Your task to perform on an android device: Clear all items from cart on amazon.com. Add bose soundlink to the cart on amazon.com, then select checkout. Image 0: 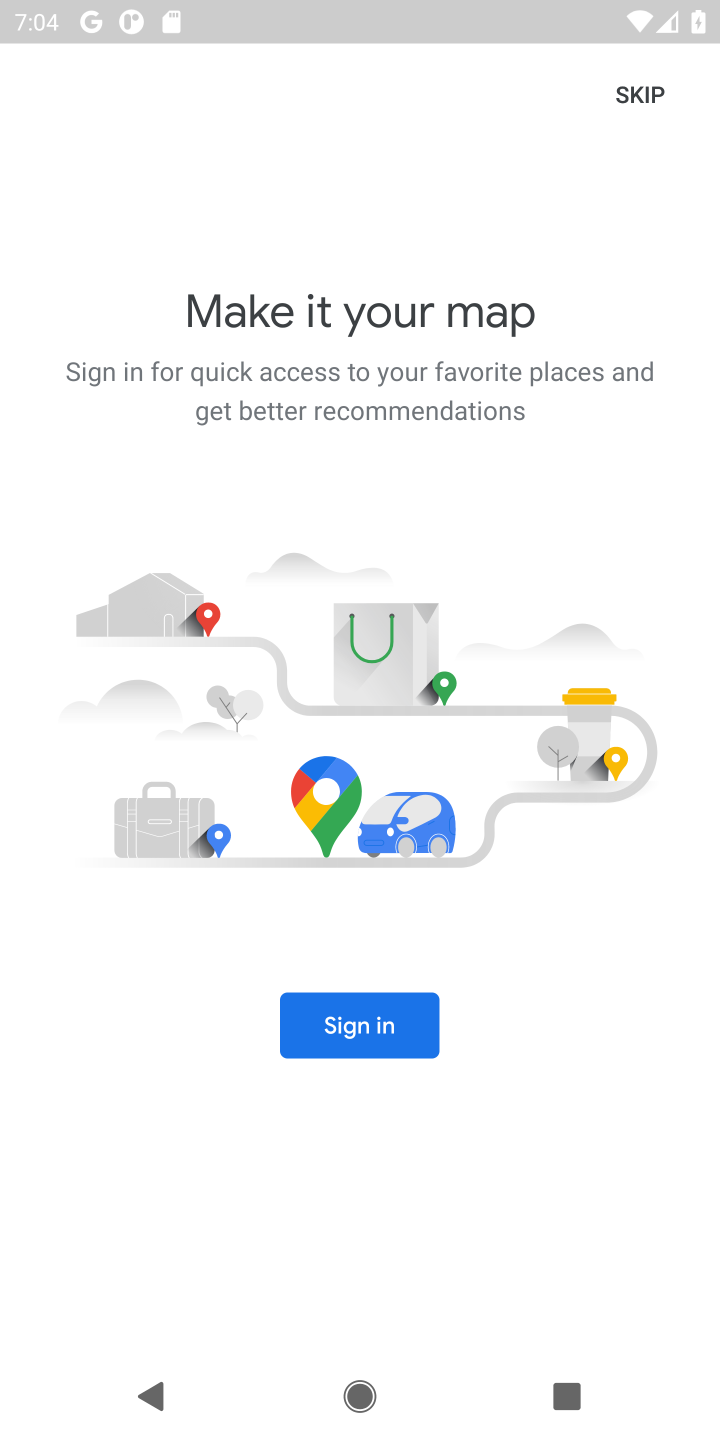
Step 0: press home button
Your task to perform on an android device: Clear all items from cart on amazon.com. Add bose soundlink to the cart on amazon.com, then select checkout. Image 1: 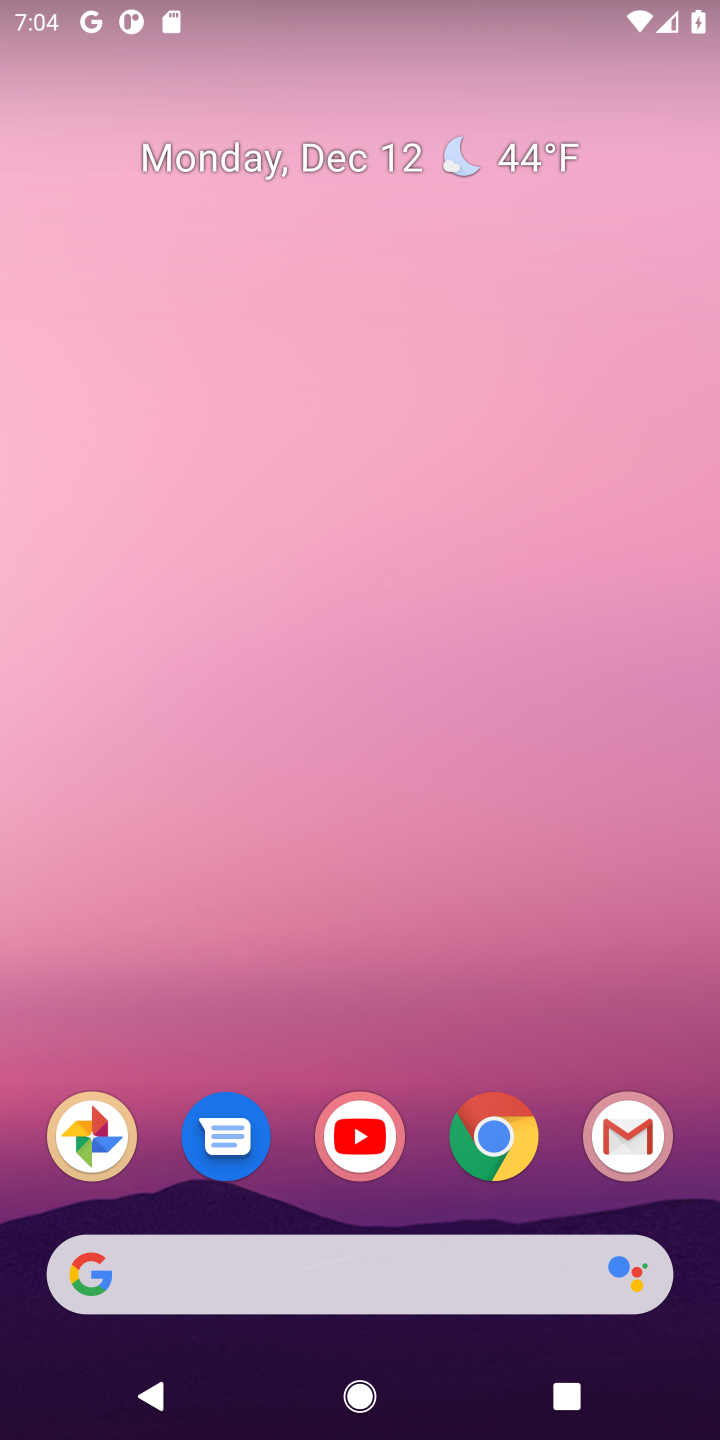
Step 1: click (487, 1133)
Your task to perform on an android device: Clear all items from cart on amazon.com. Add bose soundlink to the cart on amazon.com, then select checkout. Image 2: 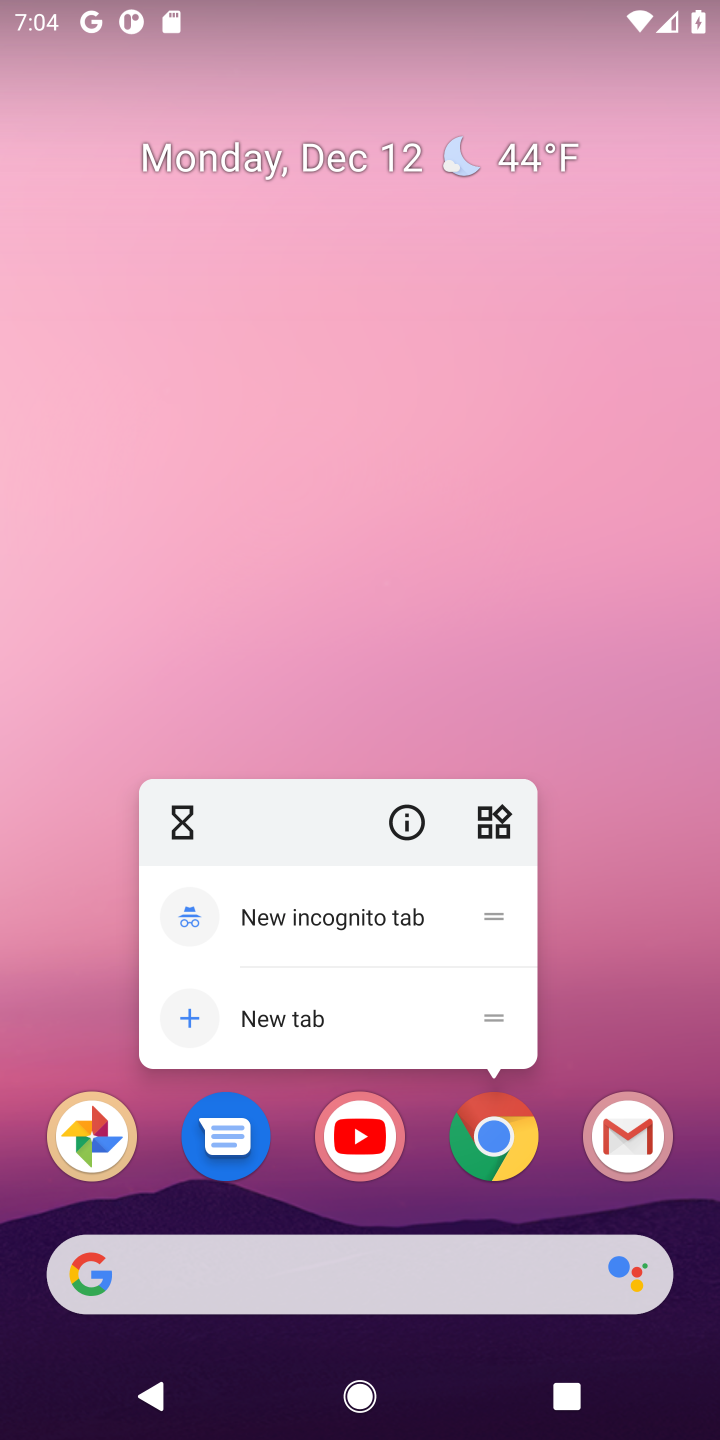
Step 2: click (499, 1145)
Your task to perform on an android device: Clear all items from cart on amazon.com. Add bose soundlink to the cart on amazon.com, then select checkout. Image 3: 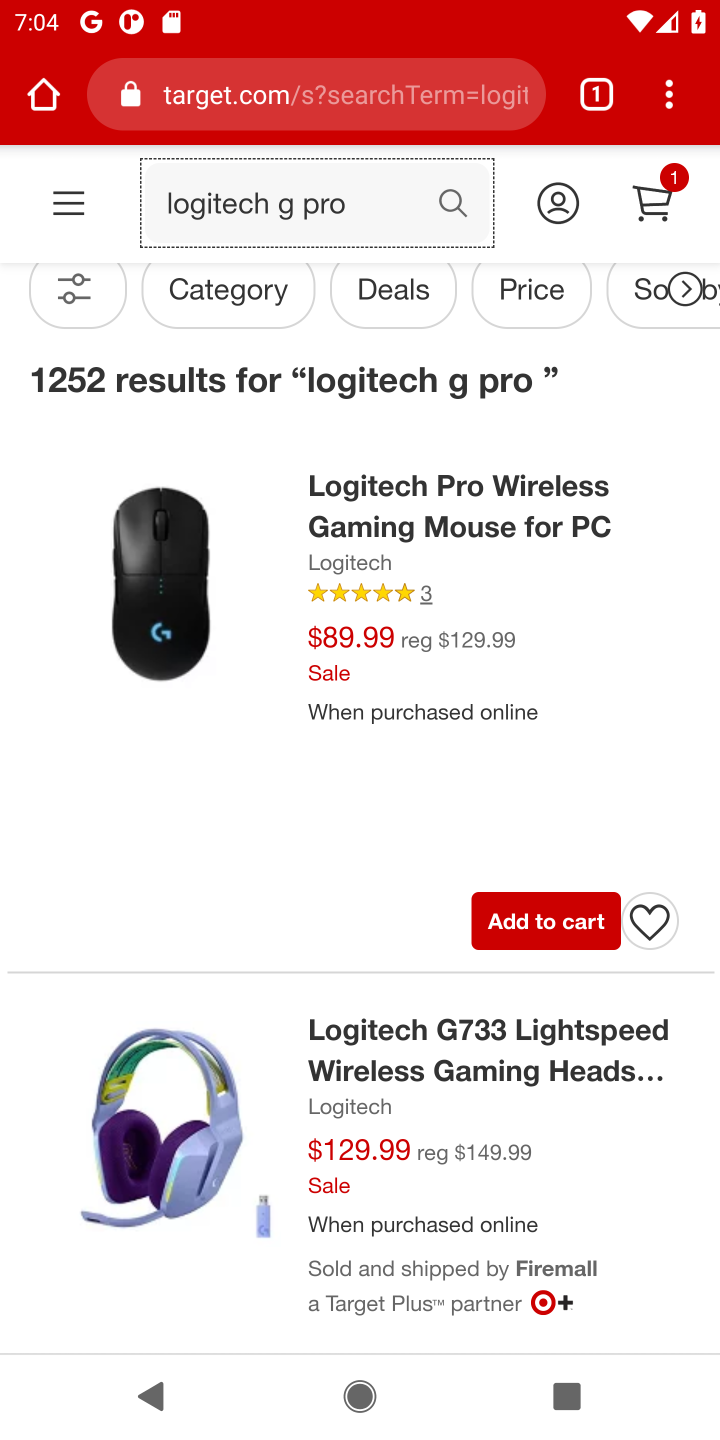
Step 3: click (248, 103)
Your task to perform on an android device: Clear all items from cart on amazon.com. Add bose soundlink to the cart on amazon.com, then select checkout. Image 4: 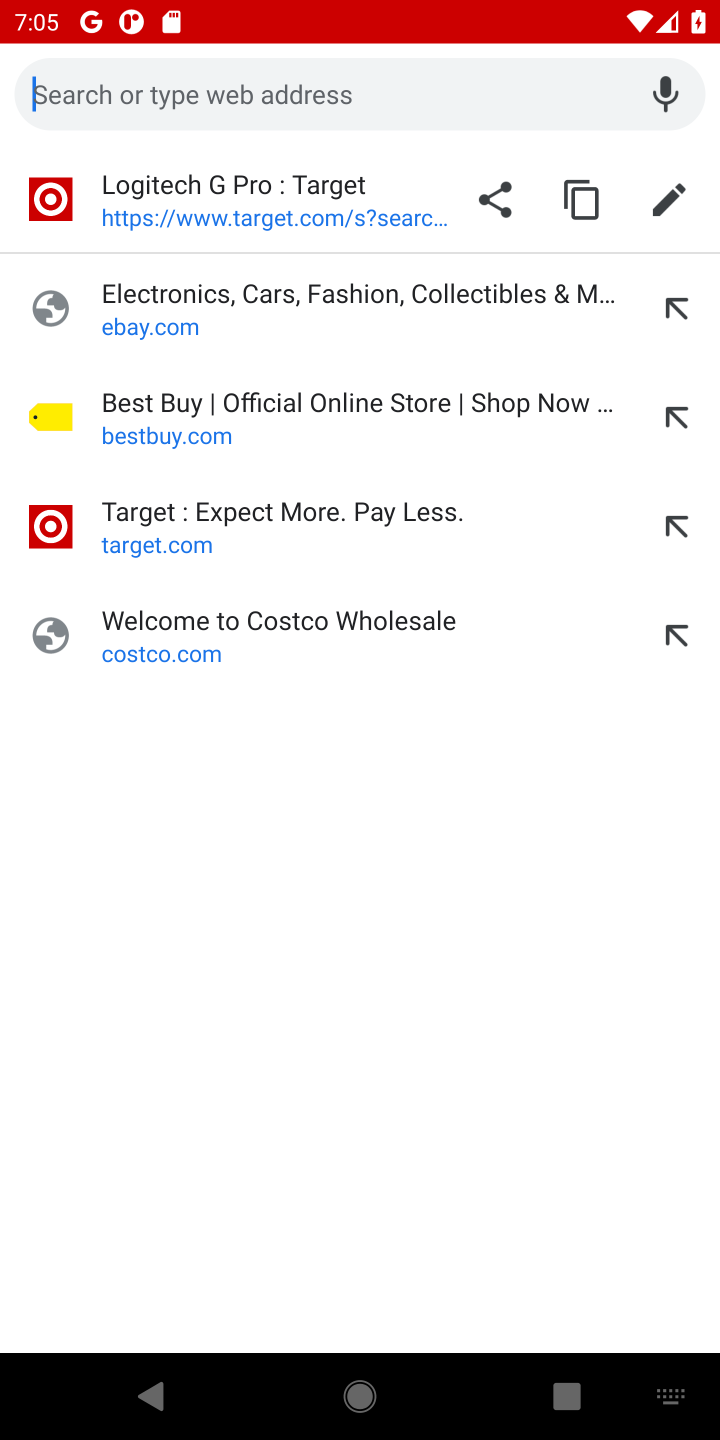
Step 4: type "amazon.com"
Your task to perform on an android device: Clear all items from cart on amazon.com. Add bose soundlink to the cart on amazon.com, then select checkout. Image 5: 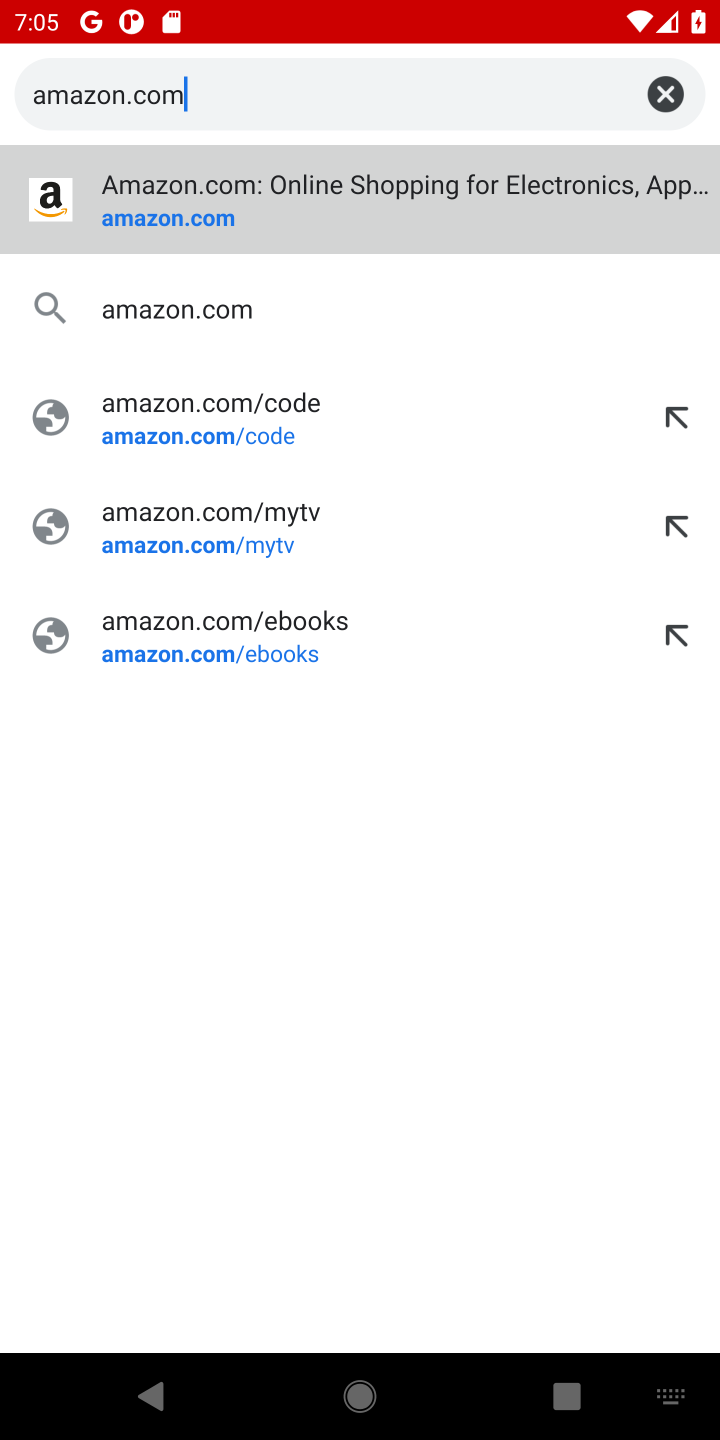
Step 5: click (150, 218)
Your task to perform on an android device: Clear all items from cart on amazon.com. Add bose soundlink to the cart on amazon.com, then select checkout. Image 6: 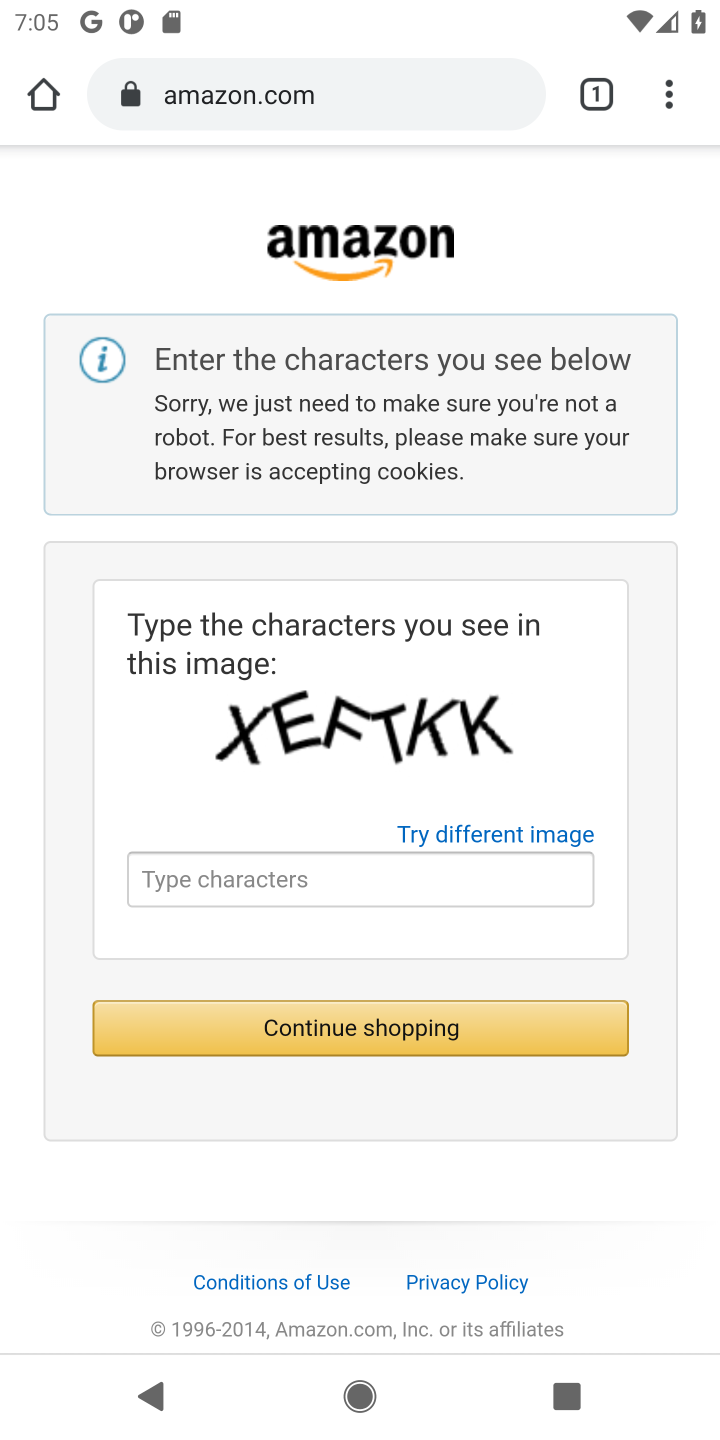
Step 6: click (231, 878)
Your task to perform on an android device: Clear all items from cart on amazon.com. Add bose soundlink to the cart on amazon.com, then select checkout. Image 7: 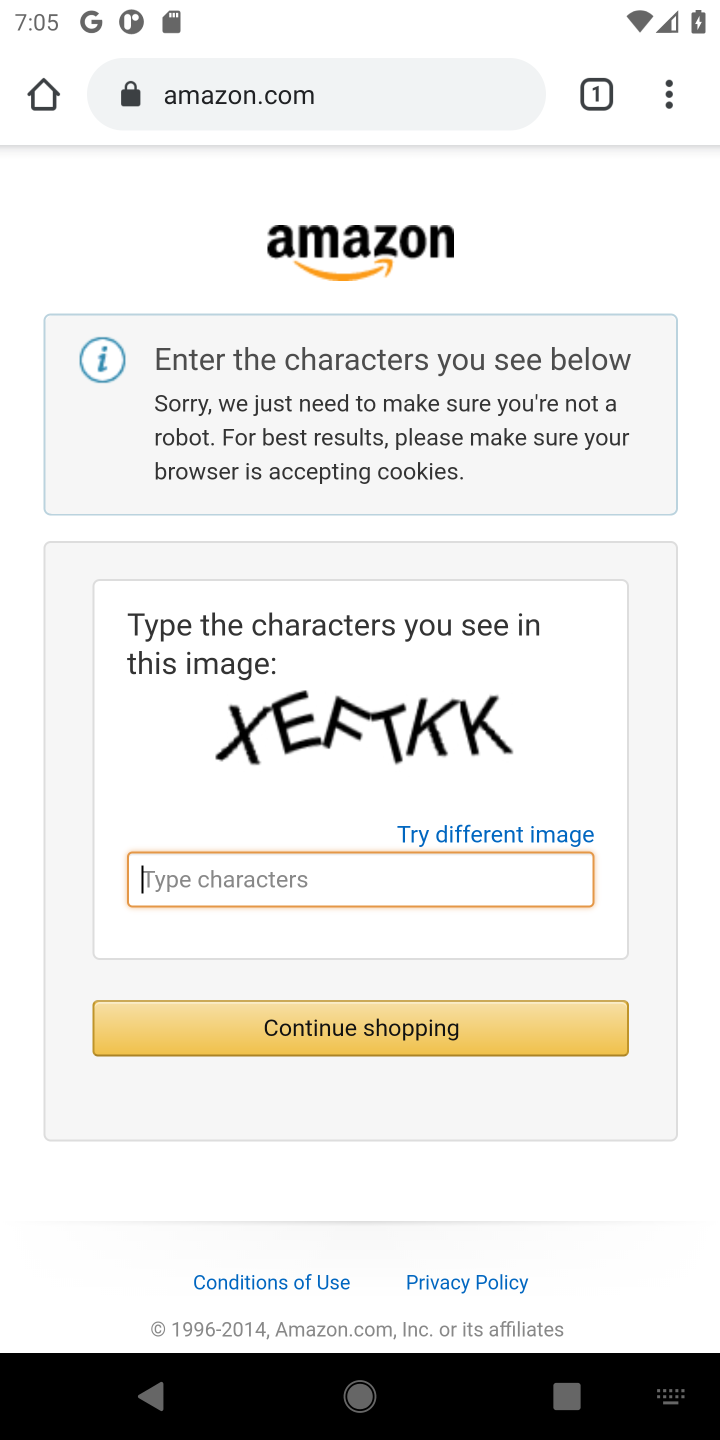
Step 7: type "XEFTKK"
Your task to perform on an android device: Clear all items from cart on amazon.com. Add bose soundlink to the cart on amazon.com, then select checkout. Image 8: 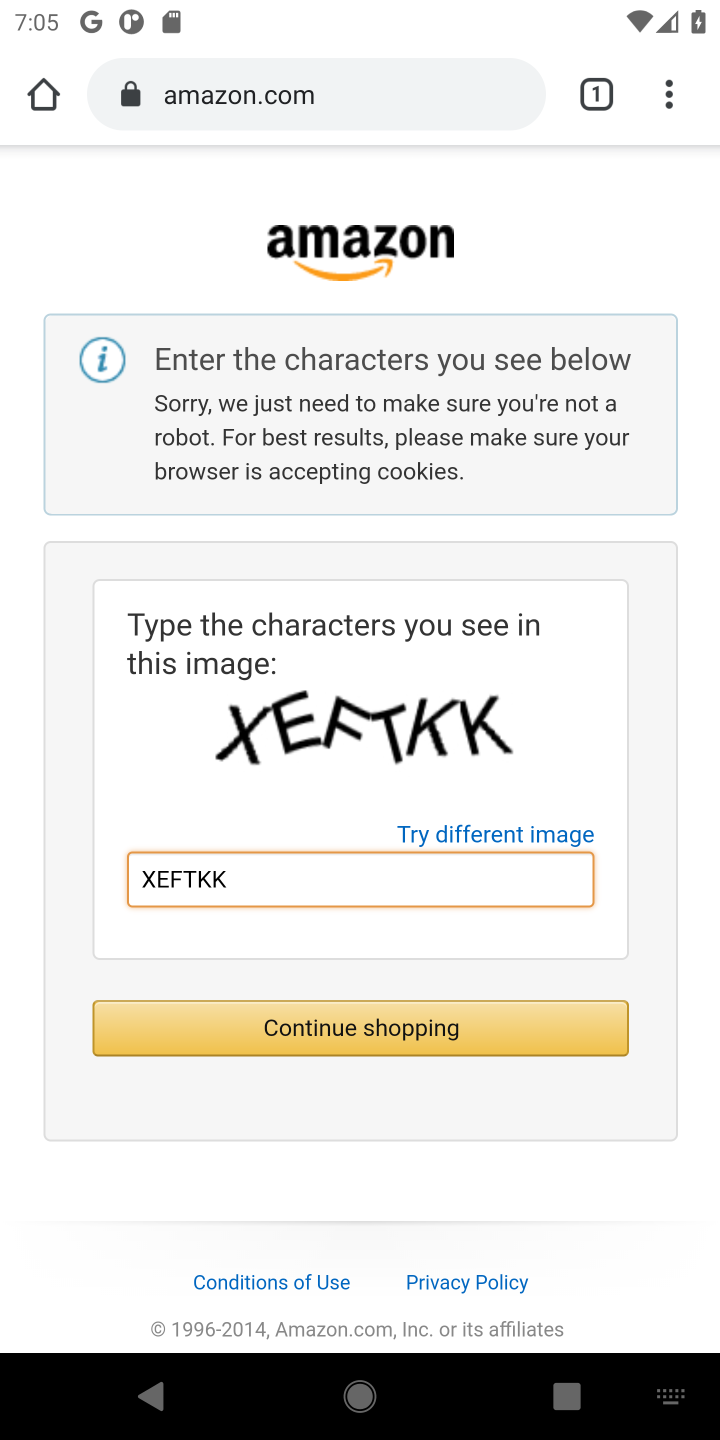
Step 8: click (399, 1033)
Your task to perform on an android device: Clear all items from cart on amazon.com. Add bose soundlink to the cart on amazon.com, then select checkout. Image 9: 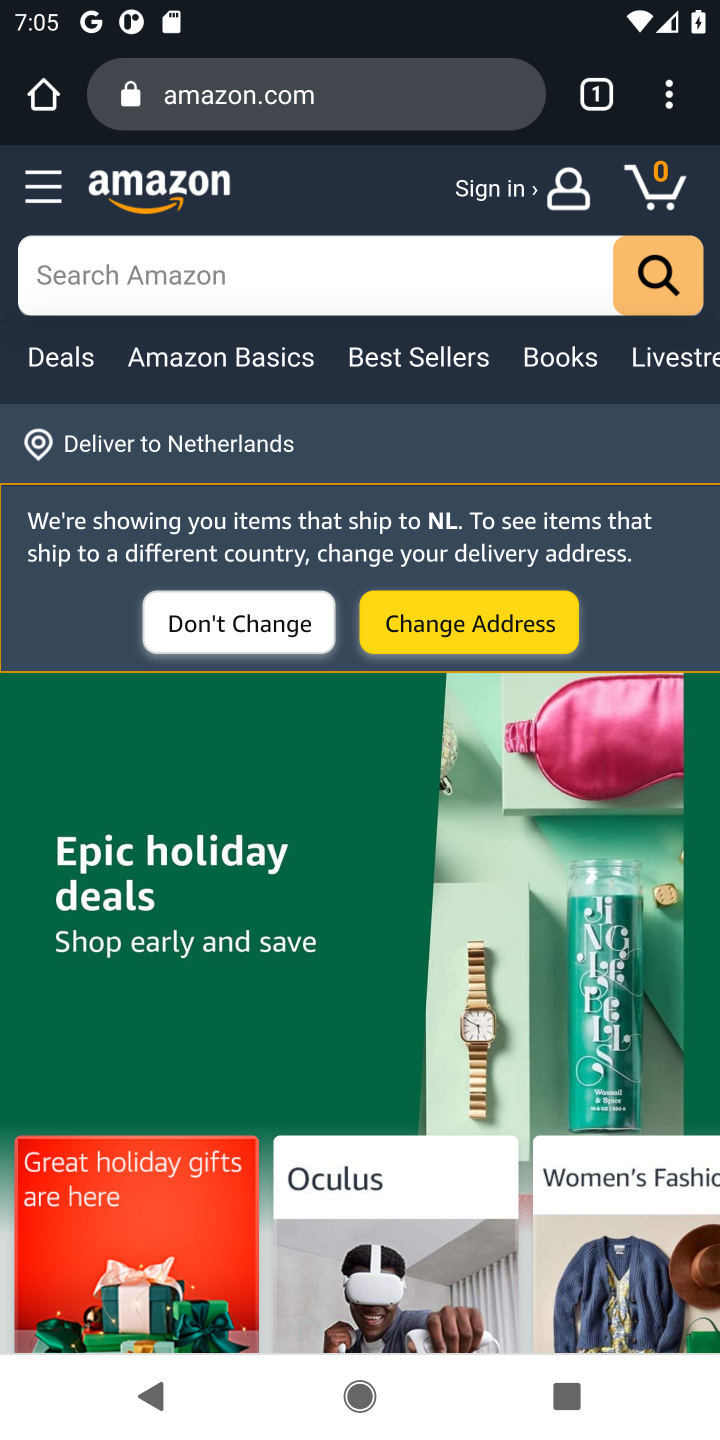
Step 9: click (658, 185)
Your task to perform on an android device: Clear all items from cart on amazon.com. Add bose soundlink to the cart on amazon.com, then select checkout. Image 10: 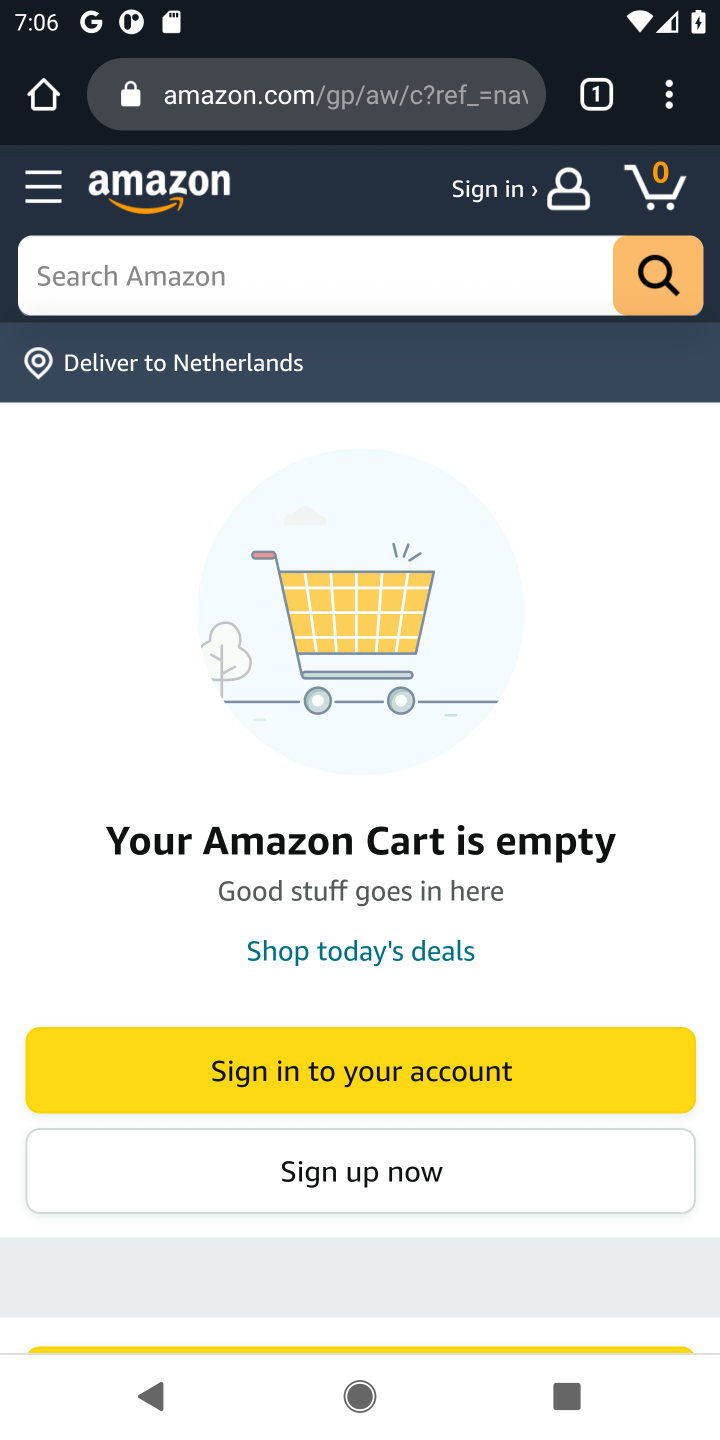
Step 10: click (101, 271)
Your task to perform on an android device: Clear all items from cart on amazon.com. Add bose soundlink to the cart on amazon.com, then select checkout. Image 11: 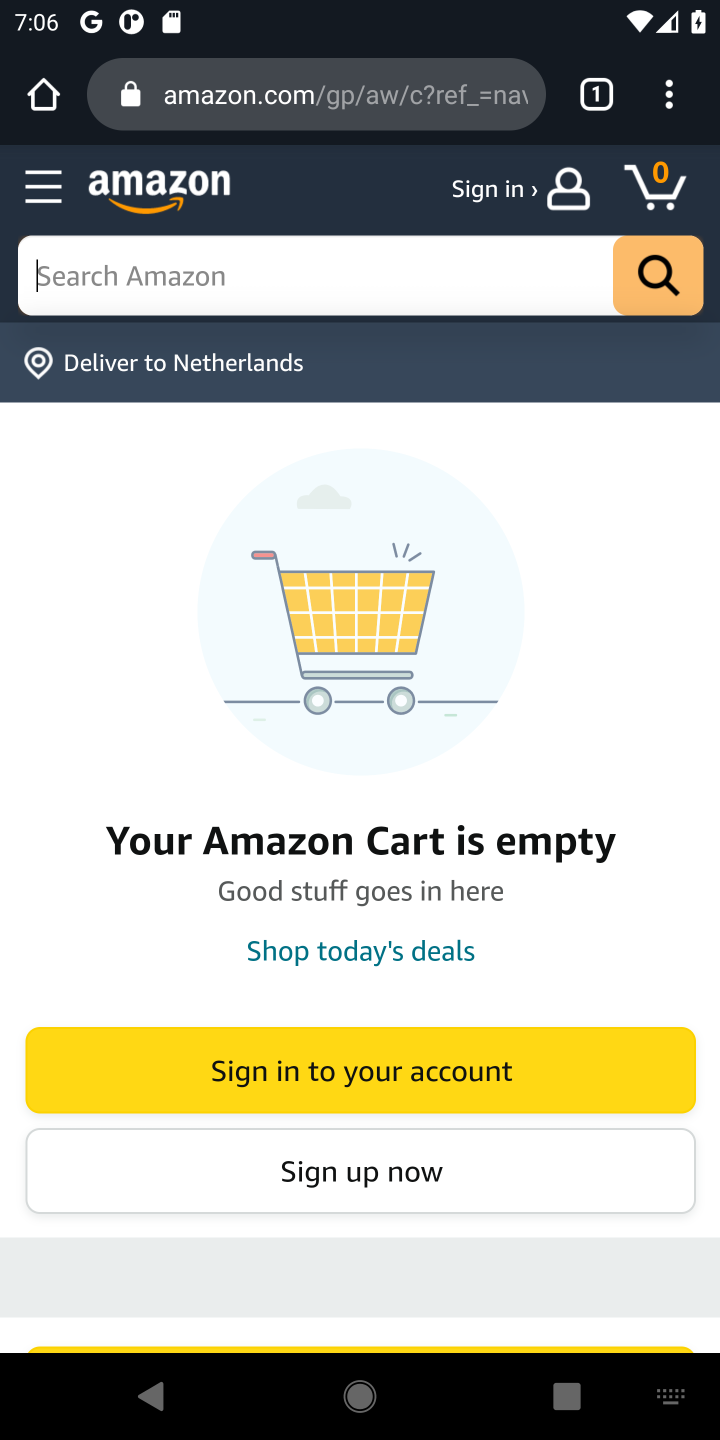
Step 11: type "bose soundlink"
Your task to perform on an android device: Clear all items from cart on amazon.com. Add bose soundlink to the cart on amazon.com, then select checkout. Image 12: 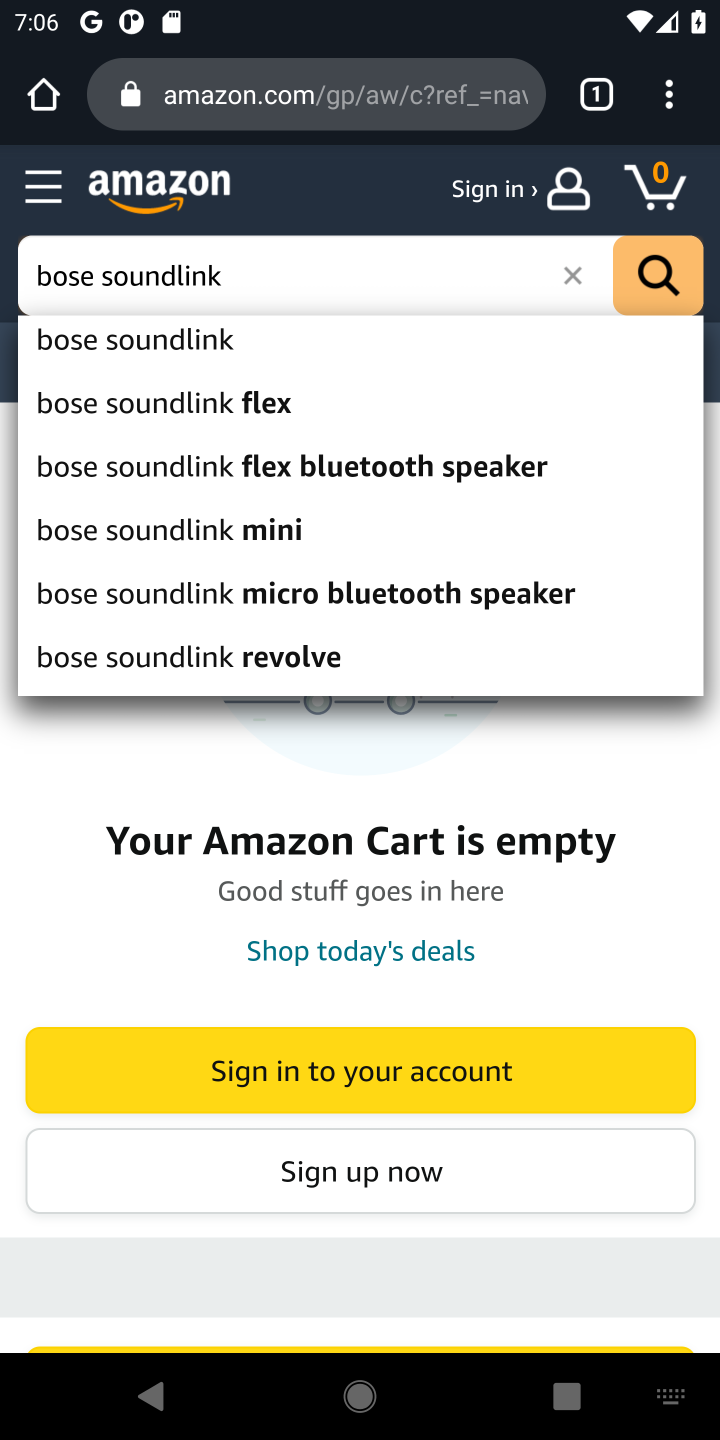
Step 12: click (211, 356)
Your task to perform on an android device: Clear all items from cart on amazon.com. Add bose soundlink to the cart on amazon.com, then select checkout. Image 13: 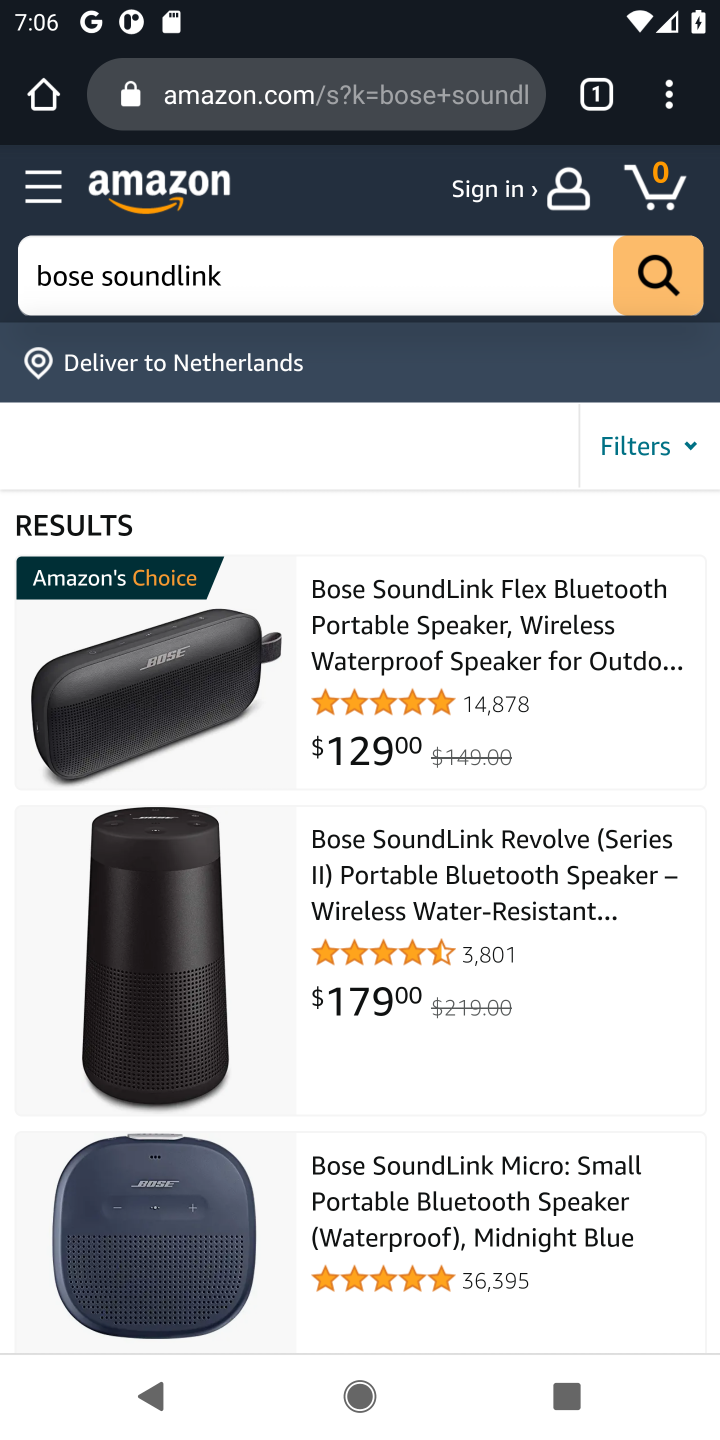
Step 13: click (401, 665)
Your task to perform on an android device: Clear all items from cart on amazon.com. Add bose soundlink to the cart on amazon.com, then select checkout. Image 14: 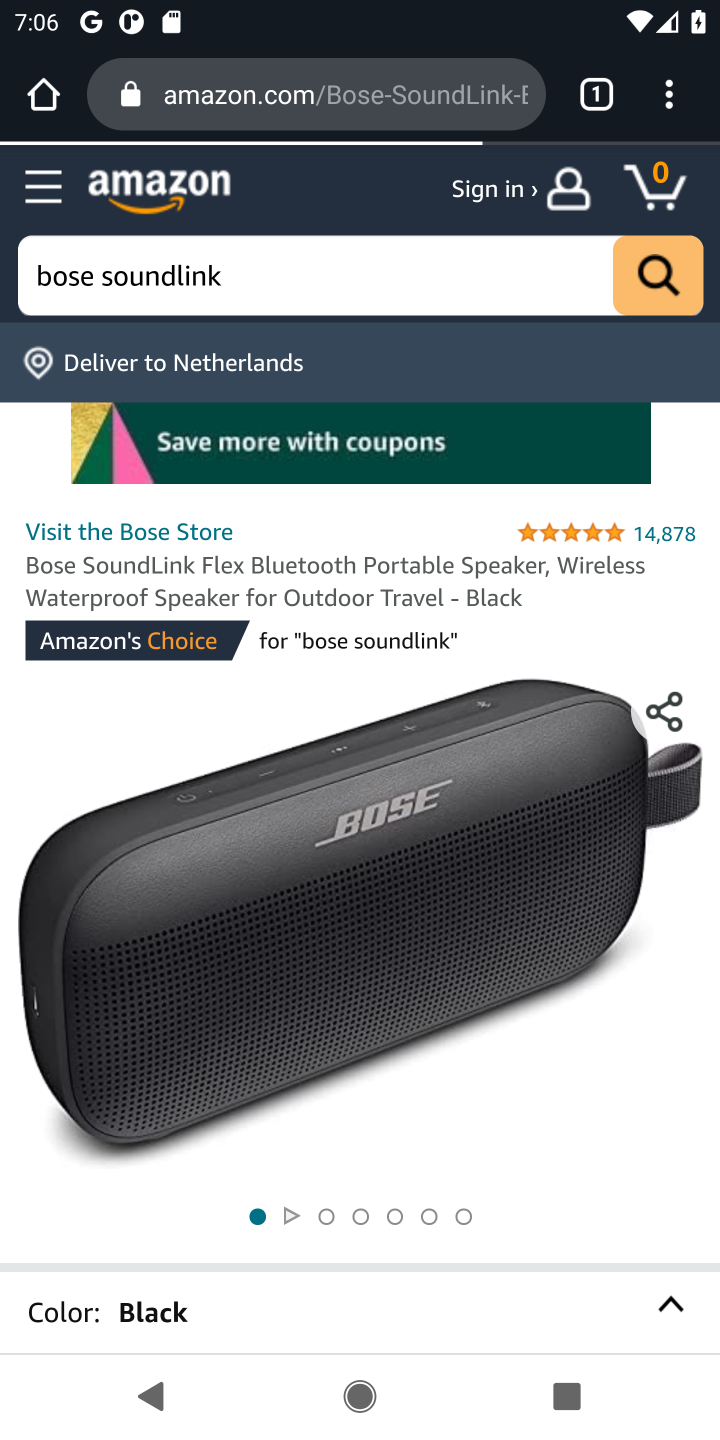
Step 14: drag from (421, 1025) to (429, 300)
Your task to perform on an android device: Clear all items from cart on amazon.com. Add bose soundlink to the cart on amazon.com, then select checkout. Image 15: 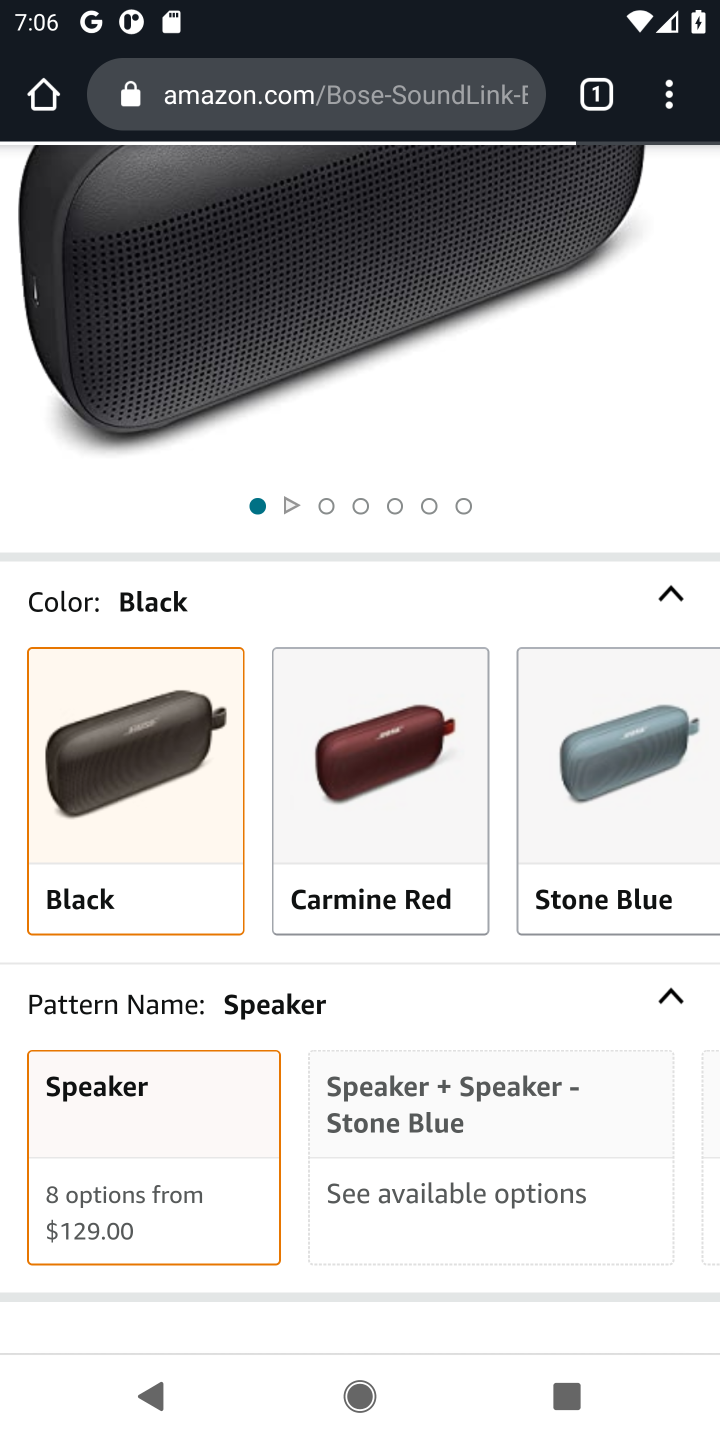
Step 15: drag from (386, 923) to (374, 409)
Your task to perform on an android device: Clear all items from cart on amazon.com. Add bose soundlink to the cart on amazon.com, then select checkout. Image 16: 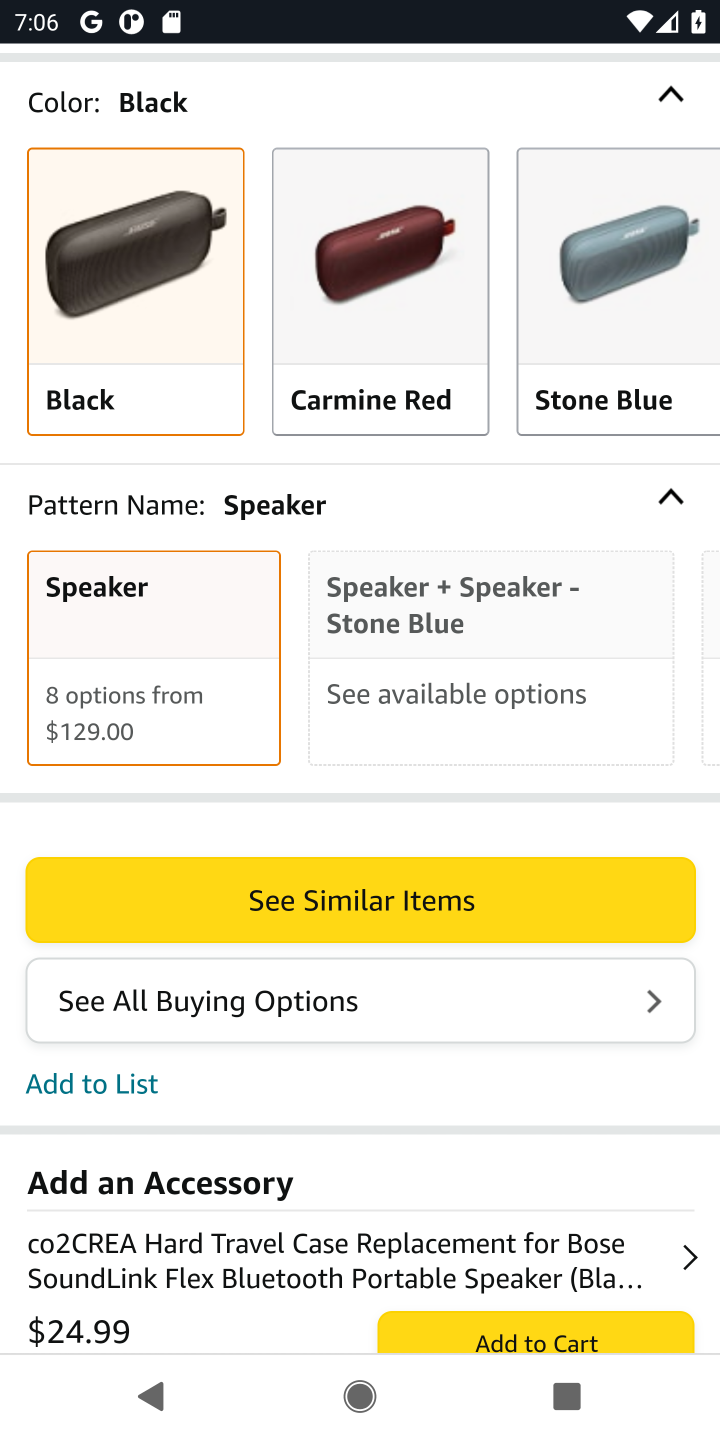
Step 16: press back button
Your task to perform on an android device: Clear all items from cart on amazon.com. Add bose soundlink to the cart on amazon.com, then select checkout. Image 17: 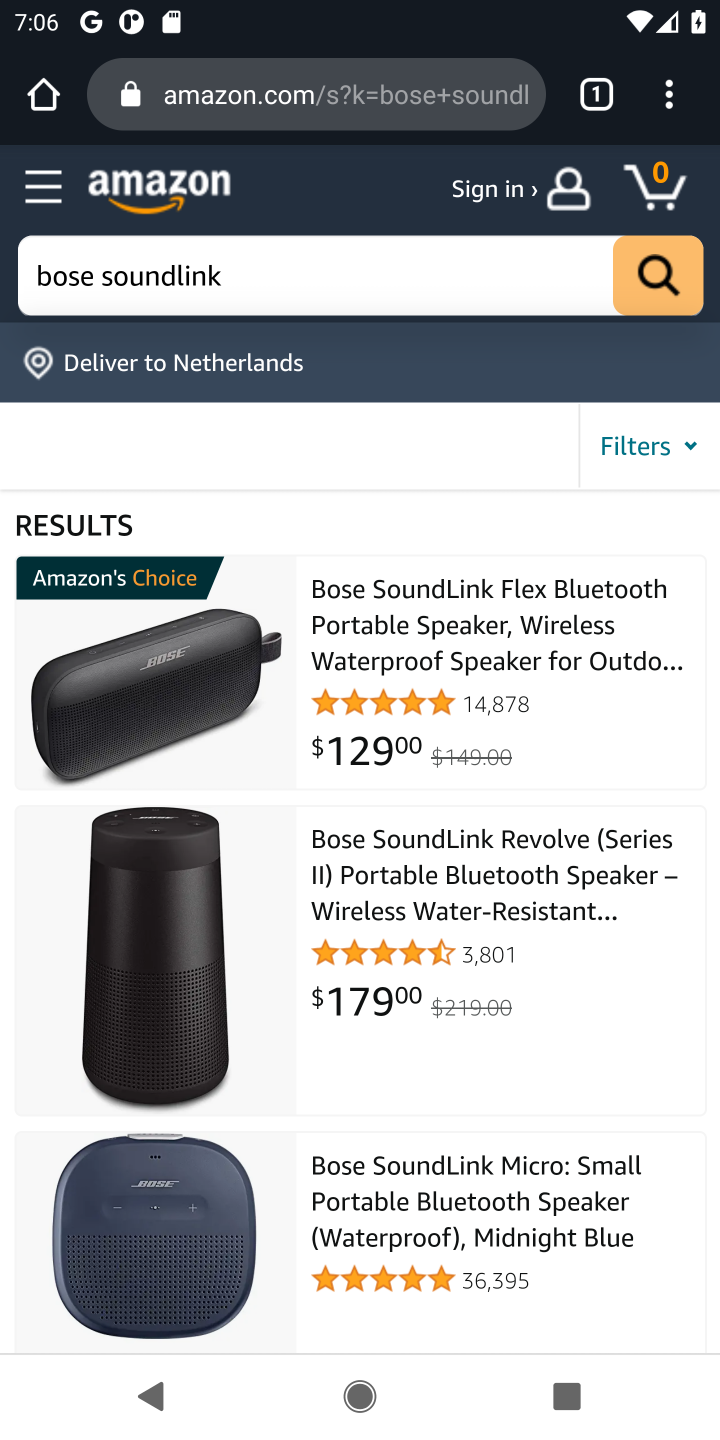
Step 17: drag from (452, 923) to (486, 575)
Your task to perform on an android device: Clear all items from cart on amazon.com. Add bose soundlink to the cart on amazon.com, then select checkout. Image 18: 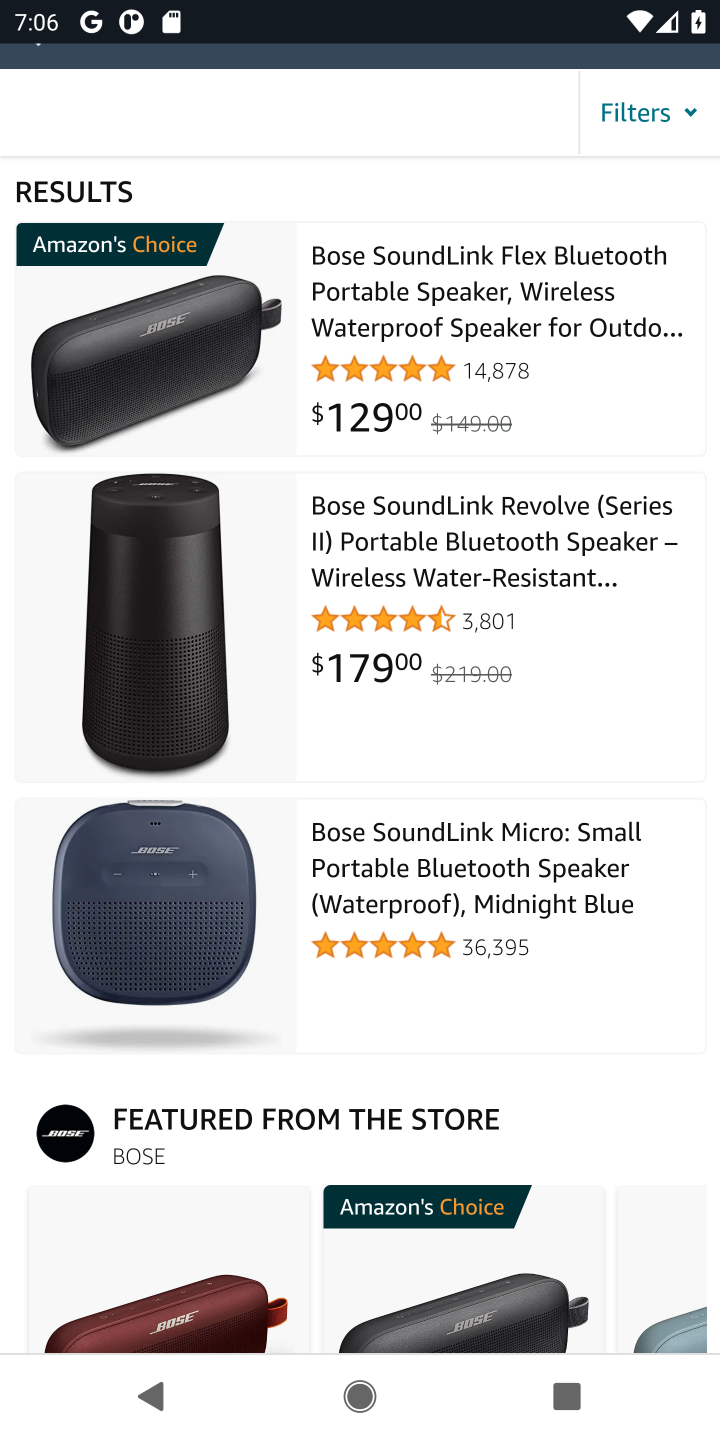
Step 18: drag from (457, 927) to (423, 607)
Your task to perform on an android device: Clear all items from cart on amazon.com. Add bose soundlink to the cart on amazon.com, then select checkout. Image 19: 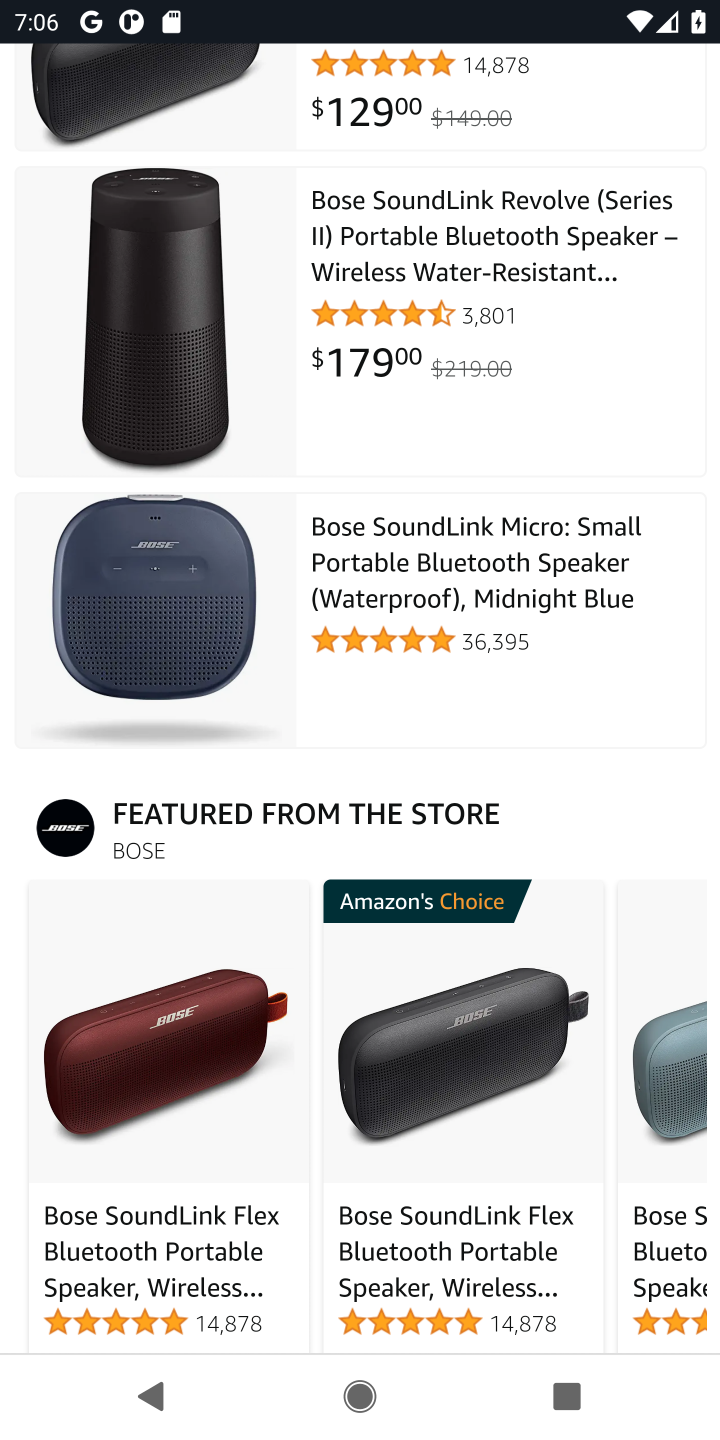
Step 19: click (414, 284)
Your task to perform on an android device: Clear all items from cart on amazon.com. Add bose soundlink to the cart on amazon.com, then select checkout. Image 20: 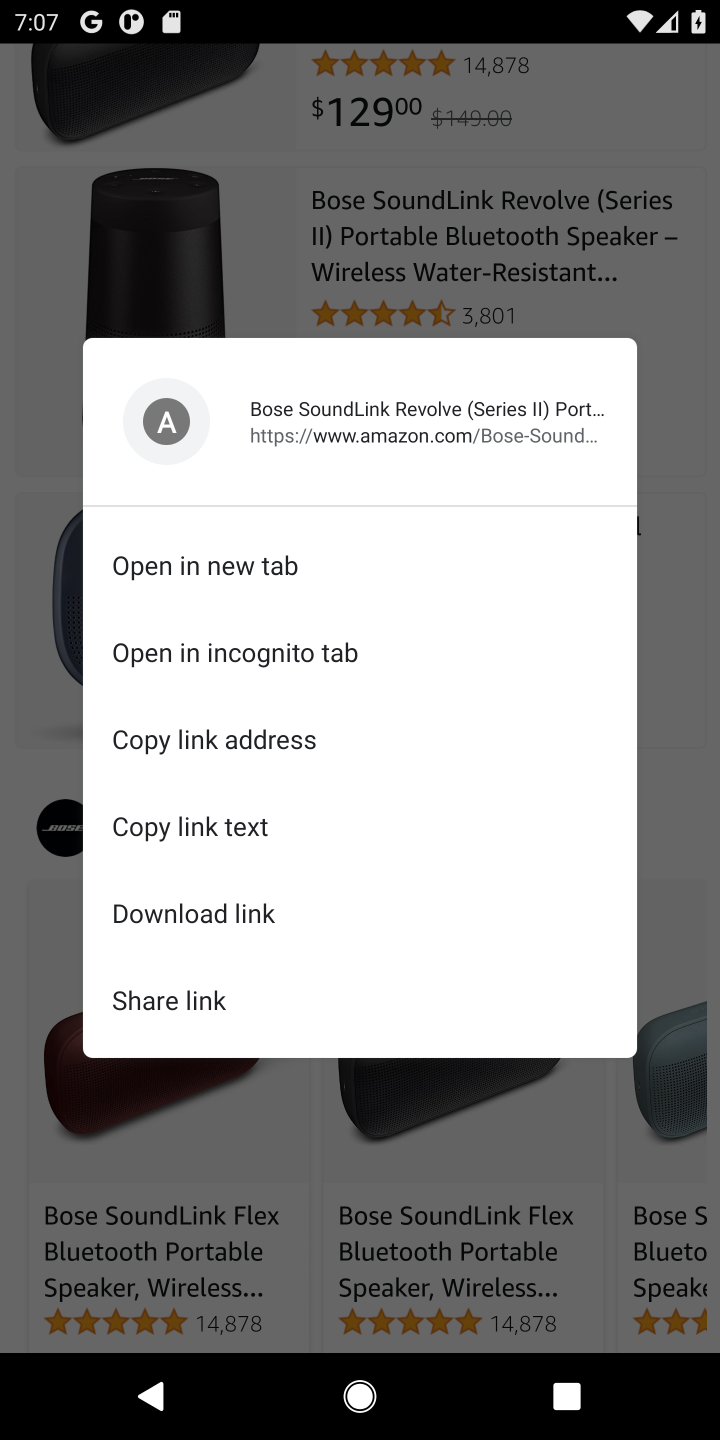
Step 20: click (436, 236)
Your task to perform on an android device: Clear all items from cart on amazon.com. Add bose soundlink to the cart on amazon.com, then select checkout. Image 21: 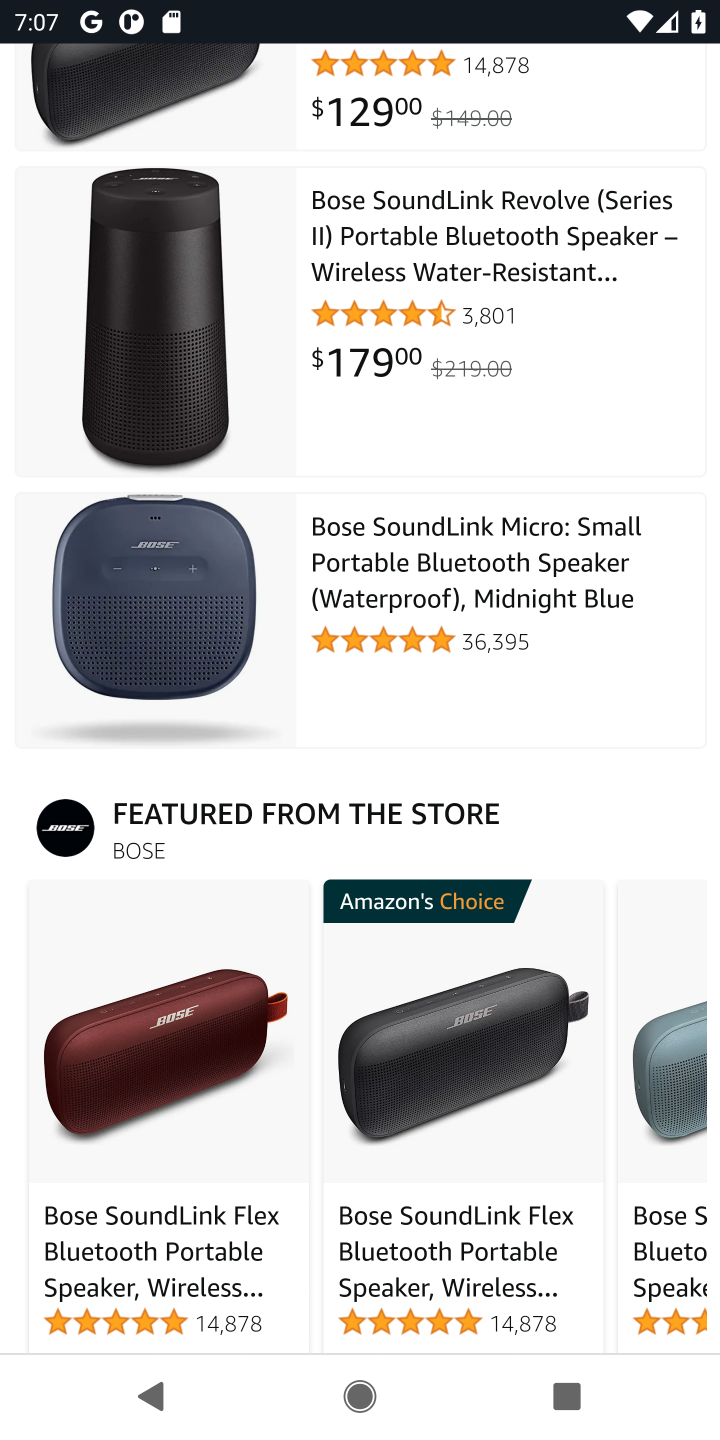
Step 21: drag from (364, 617) to (319, 198)
Your task to perform on an android device: Clear all items from cart on amazon.com. Add bose soundlink to the cart on amazon.com, then select checkout. Image 22: 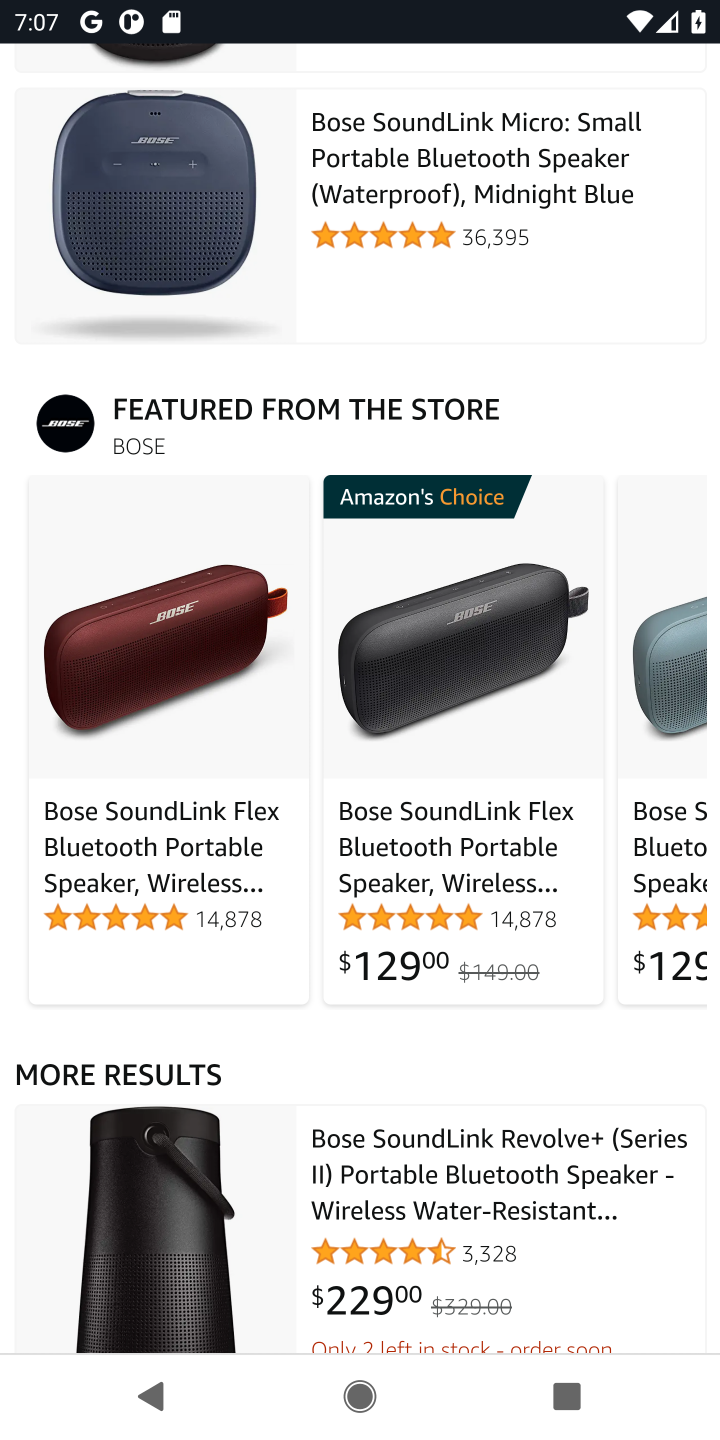
Step 22: drag from (320, 1098) to (336, 601)
Your task to perform on an android device: Clear all items from cart on amazon.com. Add bose soundlink to the cart on amazon.com, then select checkout. Image 23: 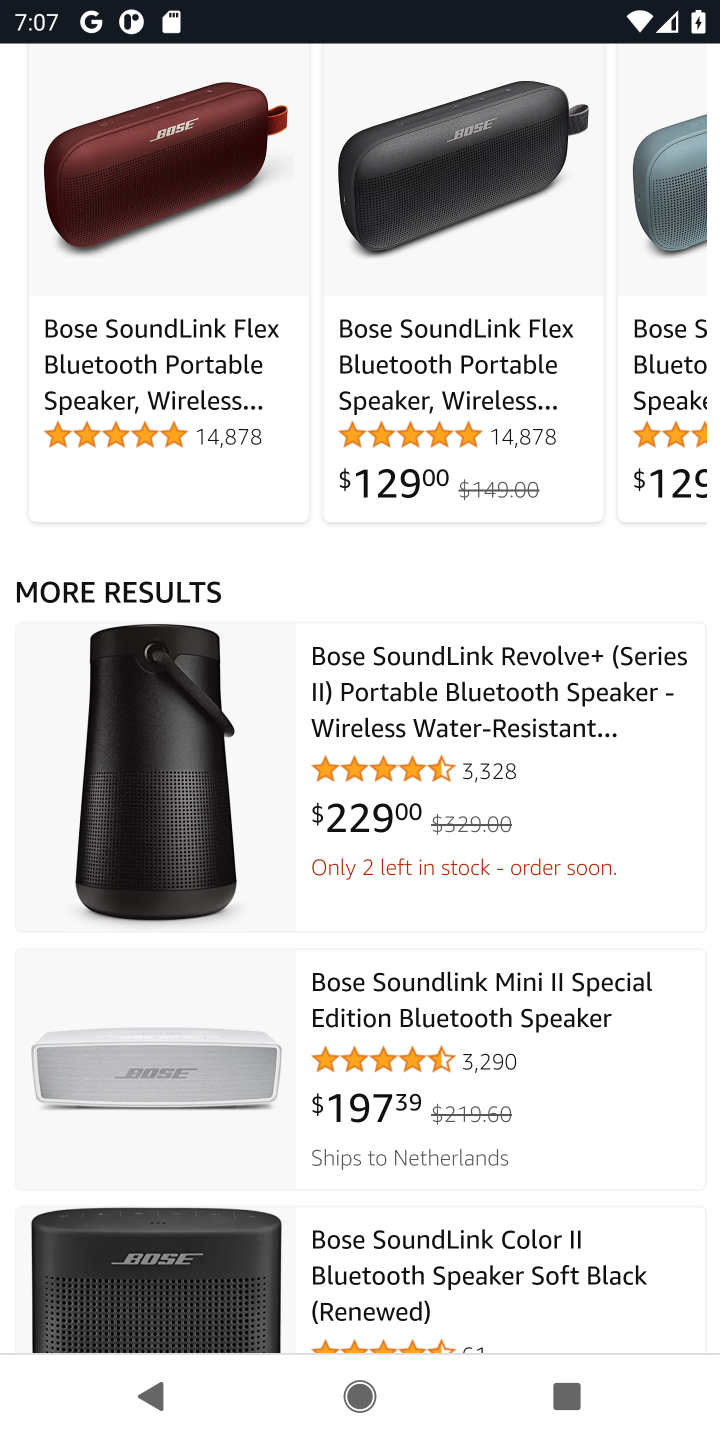
Step 23: click (420, 704)
Your task to perform on an android device: Clear all items from cart on amazon.com. Add bose soundlink to the cart on amazon.com, then select checkout. Image 24: 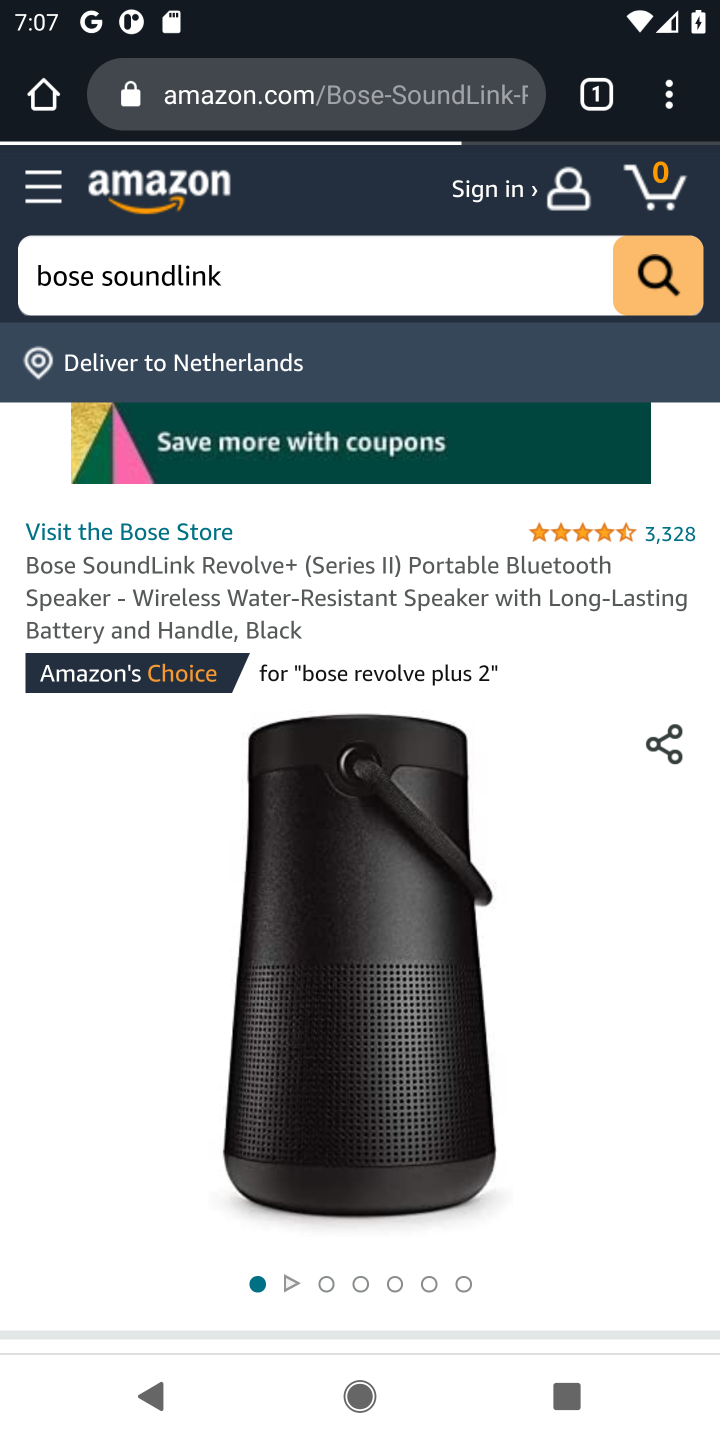
Step 24: drag from (380, 923) to (344, 197)
Your task to perform on an android device: Clear all items from cart on amazon.com. Add bose soundlink to the cart on amazon.com, then select checkout. Image 25: 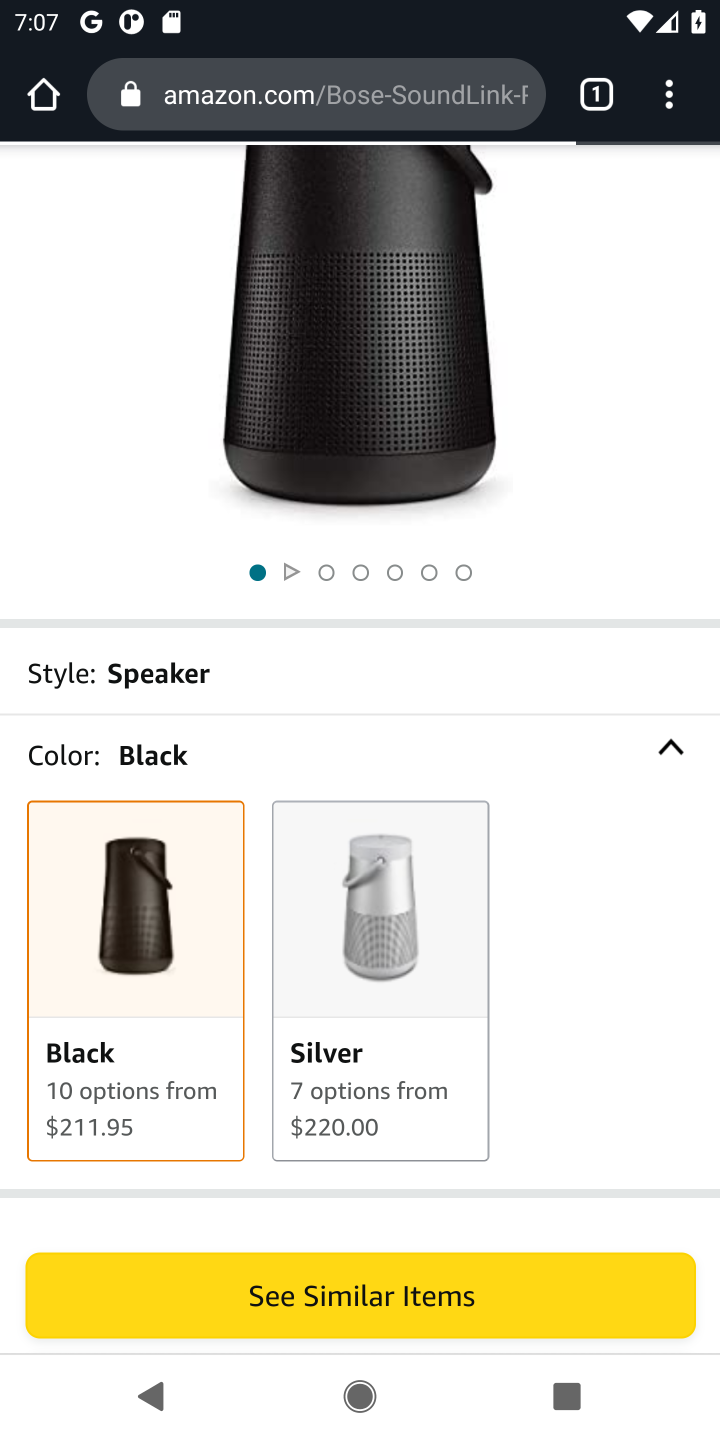
Step 25: drag from (375, 910) to (361, 458)
Your task to perform on an android device: Clear all items from cart on amazon.com. Add bose soundlink to the cart on amazon.com, then select checkout. Image 26: 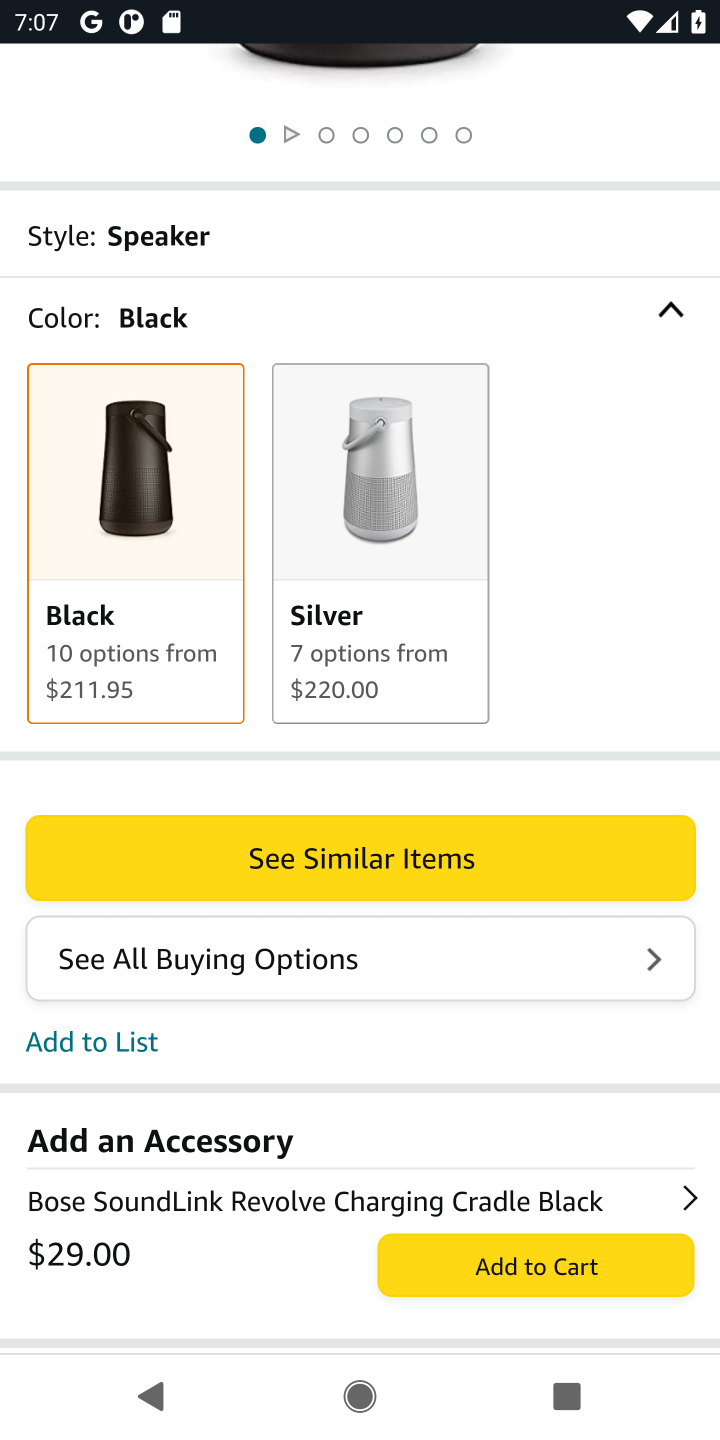
Step 26: press back button
Your task to perform on an android device: Clear all items from cart on amazon.com. Add bose soundlink to the cart on amazon.com, then select checkout. Image 27: 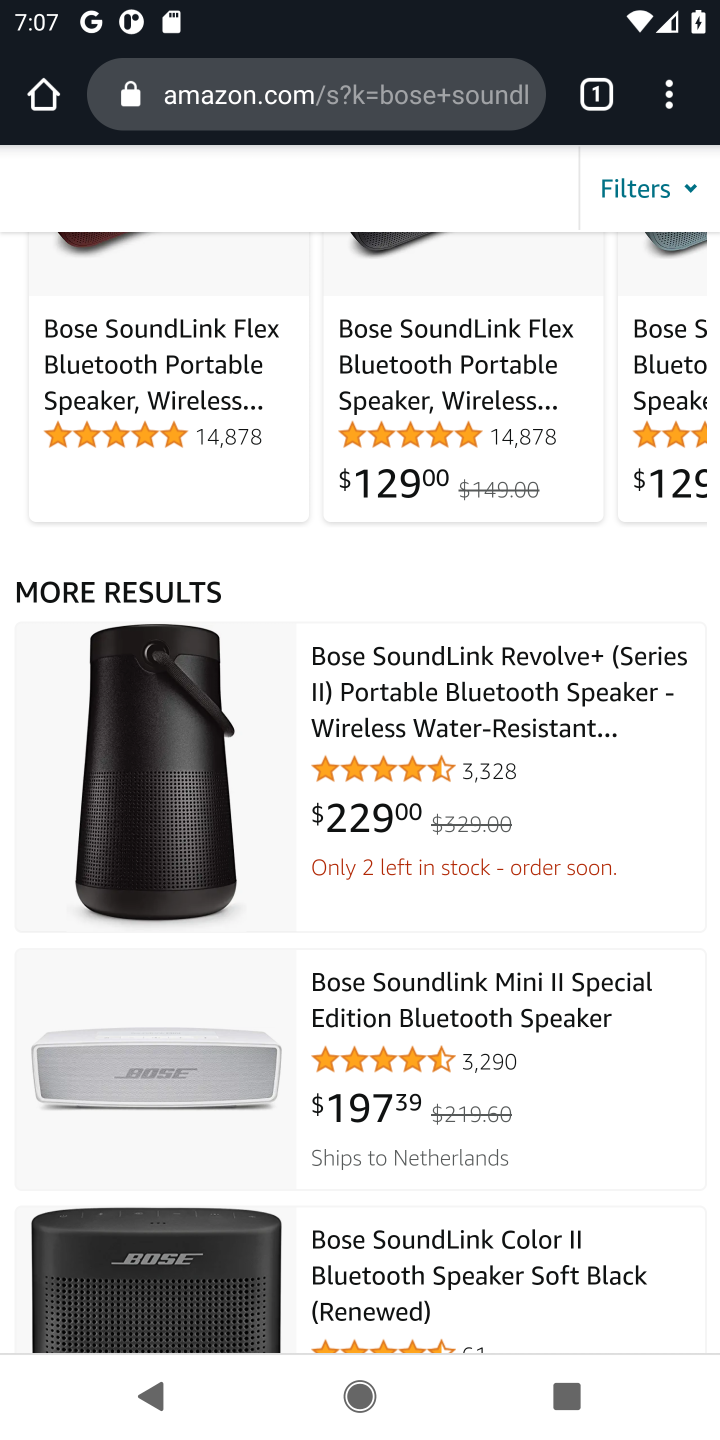
Step 27: drag from (369, 1069) to (371, 650)
Your task to perform on an android device: Clear all items from cart on amazon.com. Add bose soundlink to the cart on amazon.com, then select checkout. Image 28: 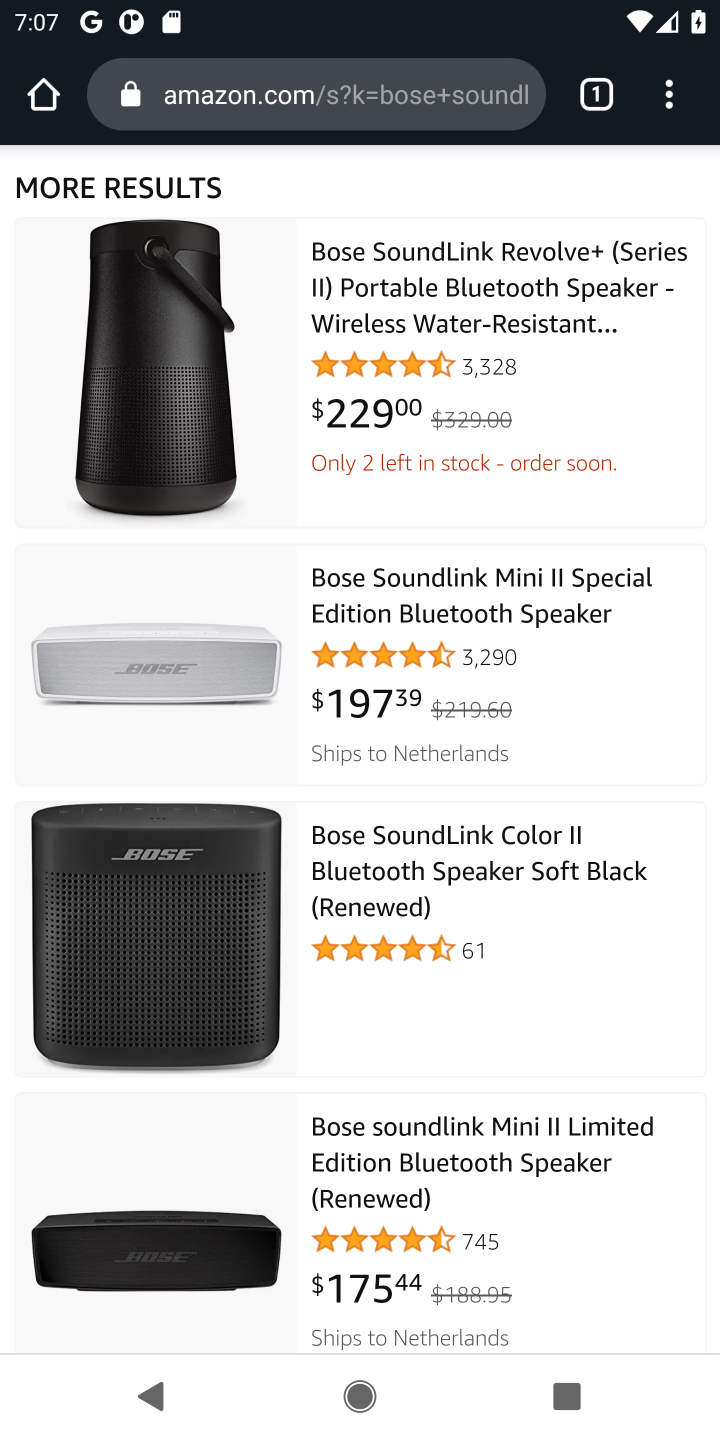
Step 28: click (371, 623)
Your task to perform on an android device: Clear all items from cart on amazon.com. Add bose soundlink to the cart on amazon.com, then select checkout. Image 29: 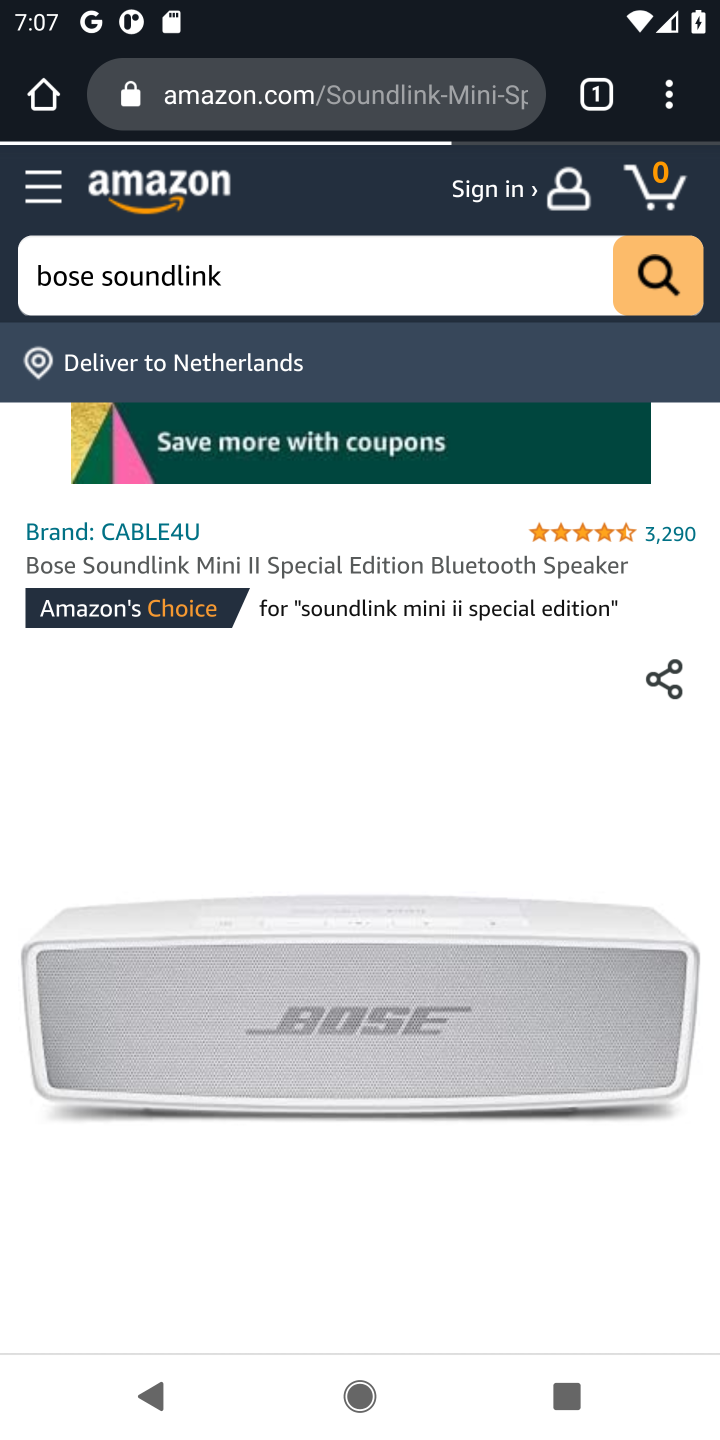
Step 29: drag from (334, 1121) to (271, 287)
Your task to perform on an android device: Clear all items from cart on amazon.com. Add bose soundlink to the cart on amazon.com, then select checkout. Image 30: 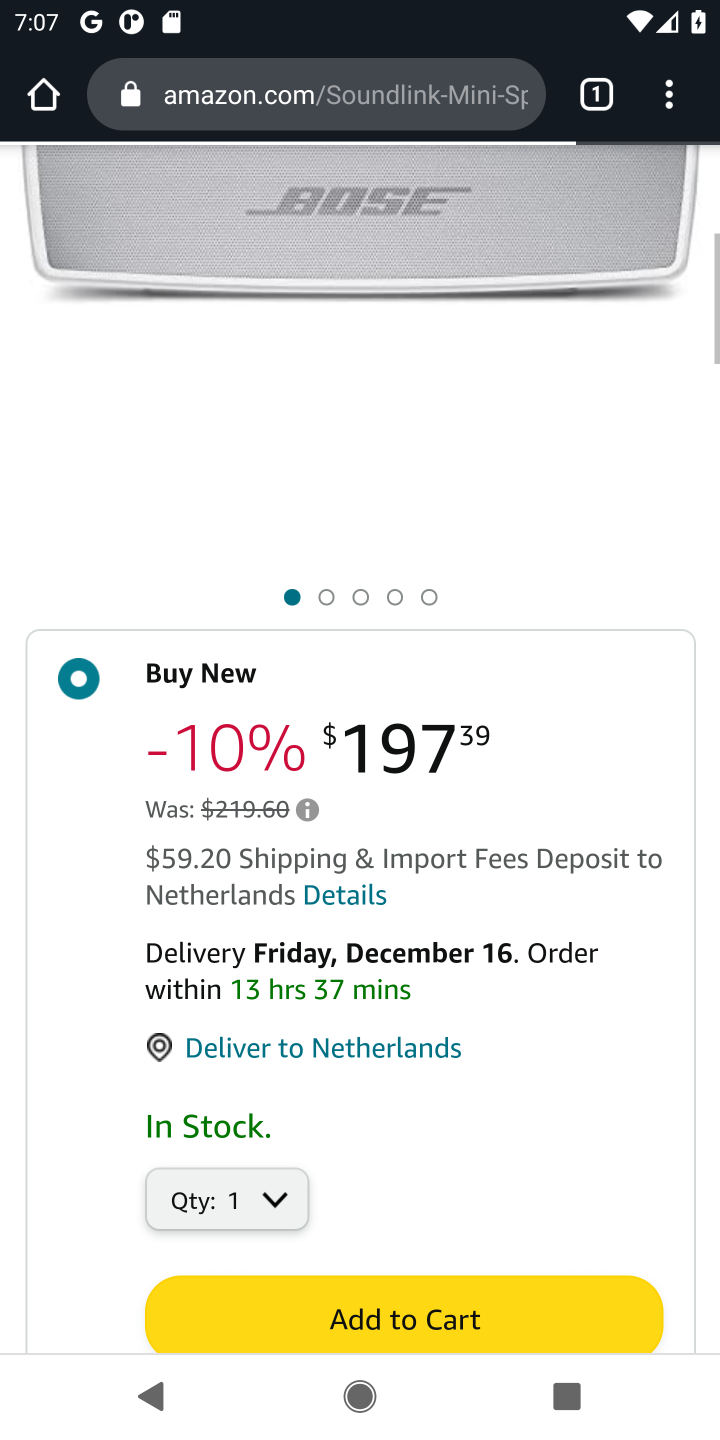
Step 30: drag from (306, 900) to (321, 312)
Your task to perform on an android device: Clear all items from cart on amazon.com. Add bose soundlink to the cart on amazon.com, then select checkout. Image 31: 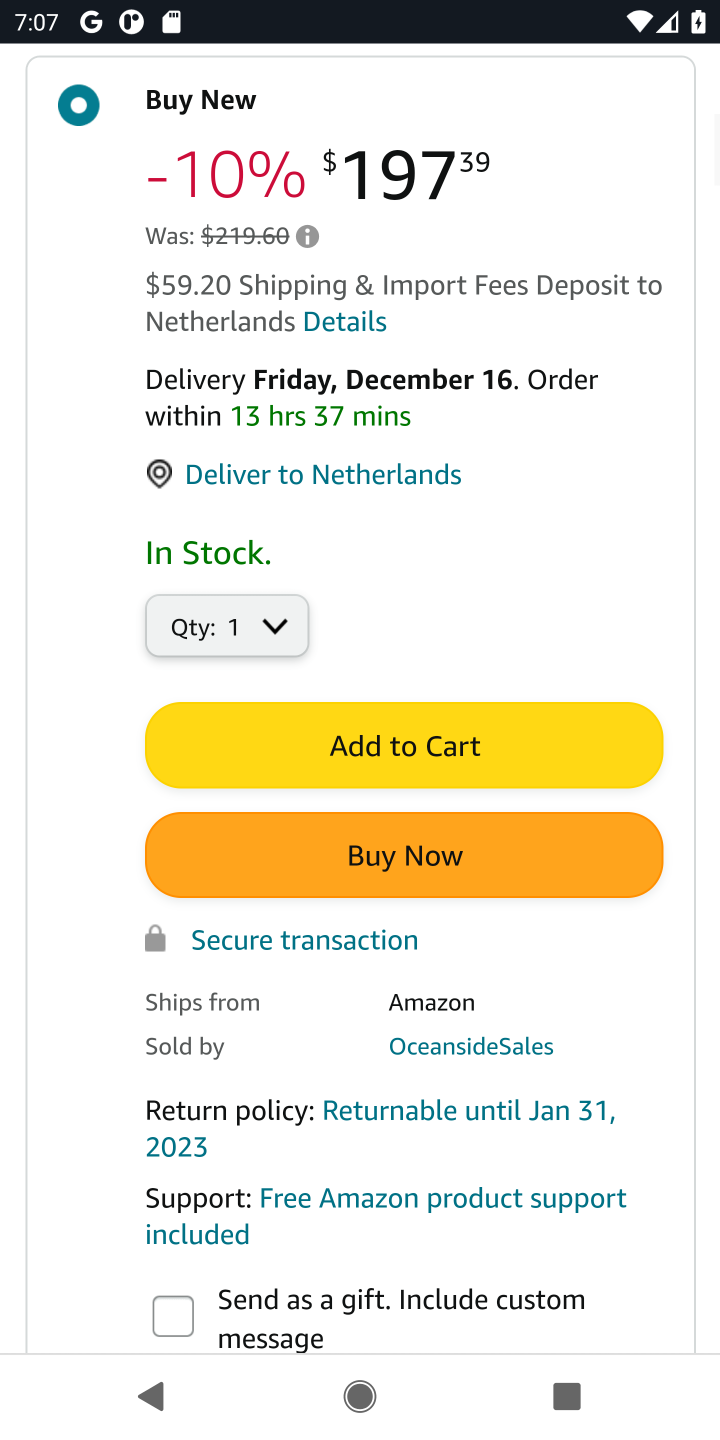
Step 31: click (363, 743)
Your task to perform on an android device: Clear all items from cart on amazon.com. Add bose soundlink to the cart on amazon.com, then select checkout. Image 32: 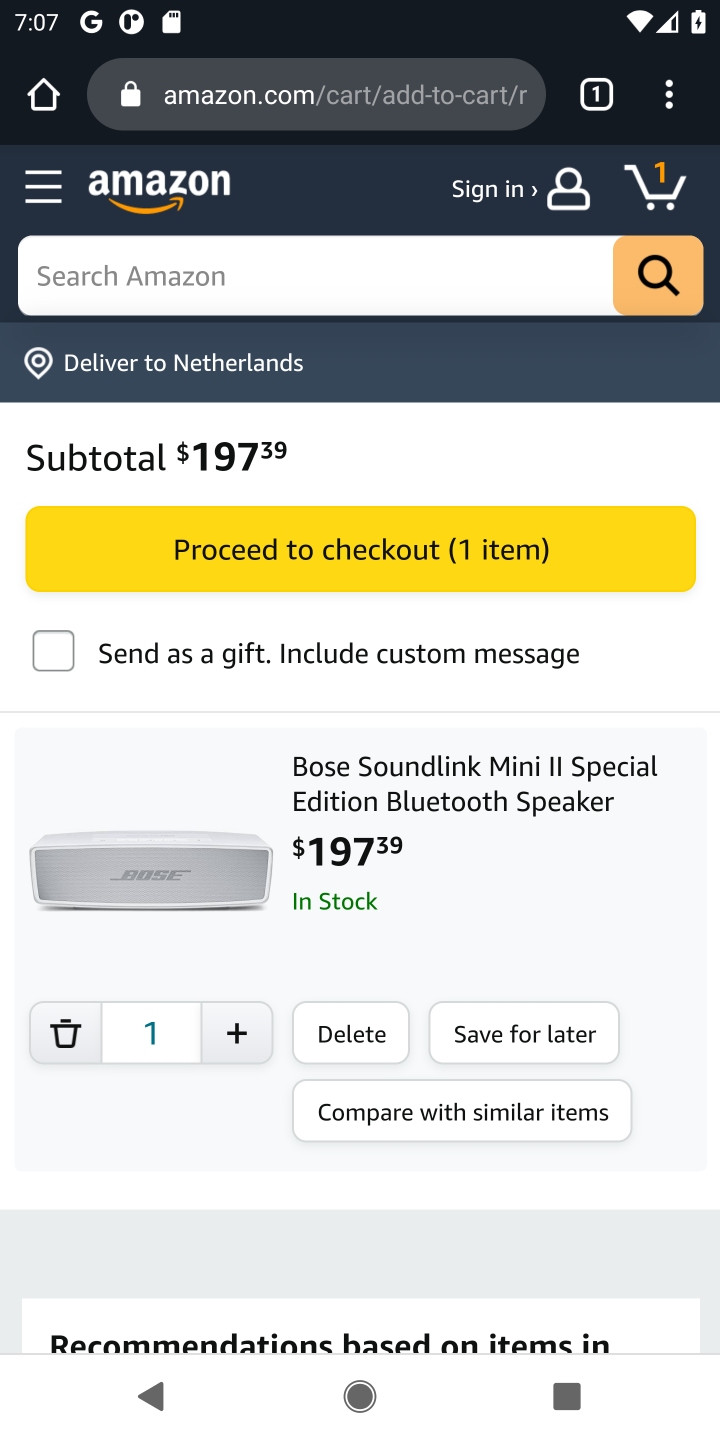
Step 32: click (393, 531)
Your task to perform on an android device: Clear all items from cart on amazon.com. Add bose soundlink to the cart on amazon.com, then select checkout. Image 33: 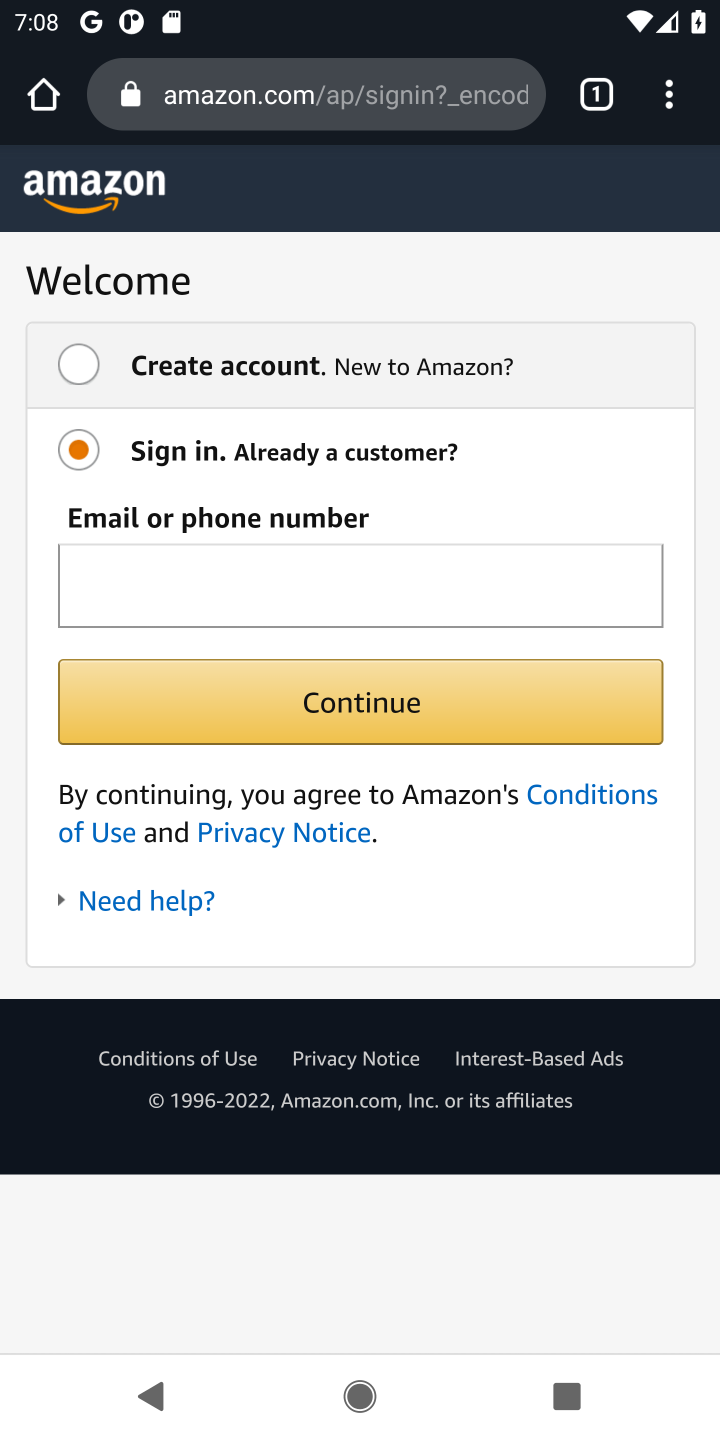
Step 33: task complete